Your task to perform on an android device: Nike Air Max 2020 shoes on Nike.com Image 0: 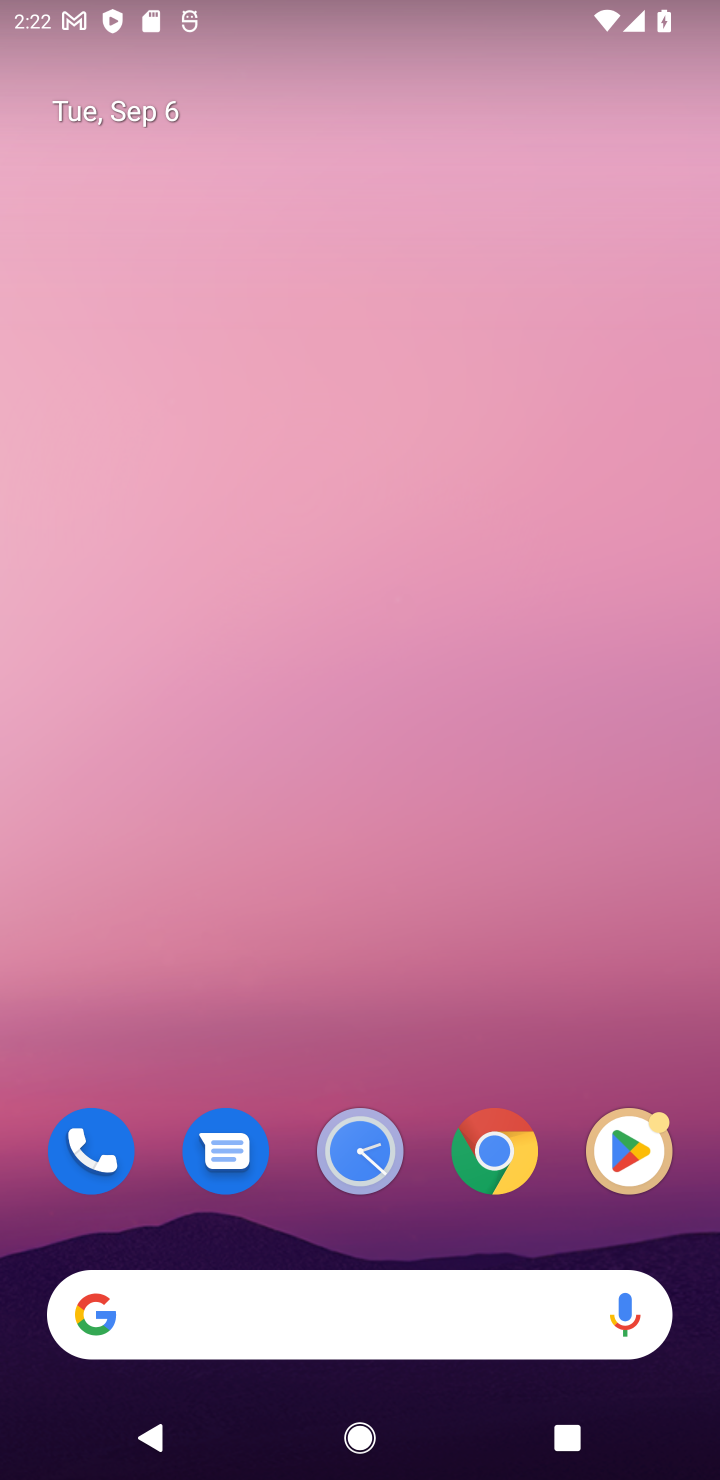
Step 0: click (489, 1128)
Your task to perform on an android device: Nike Air Max 2020 shoes on Nike.com Image 1: 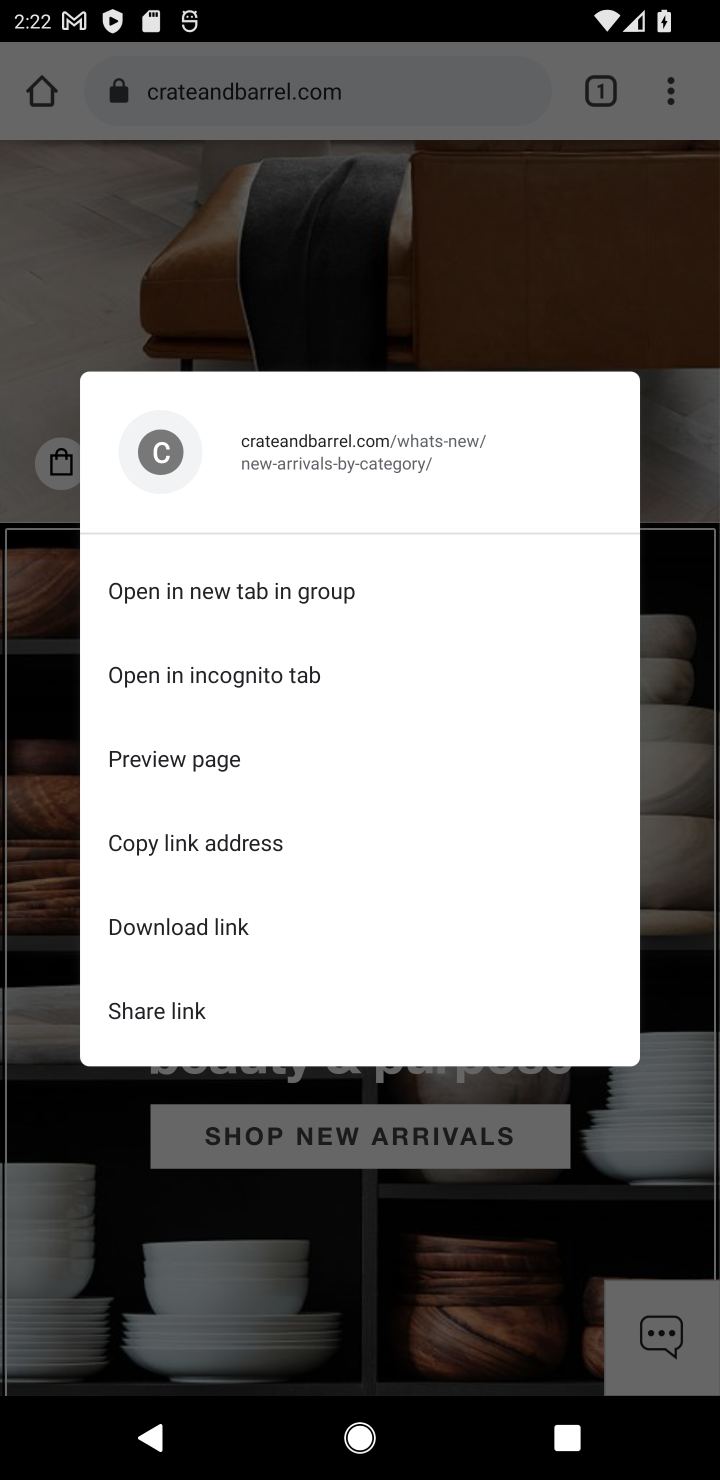
Step 1: click (196, 116)
Your task to perform on an android device: Nike Air Max 2020 shoes on Nike.com Image 2: 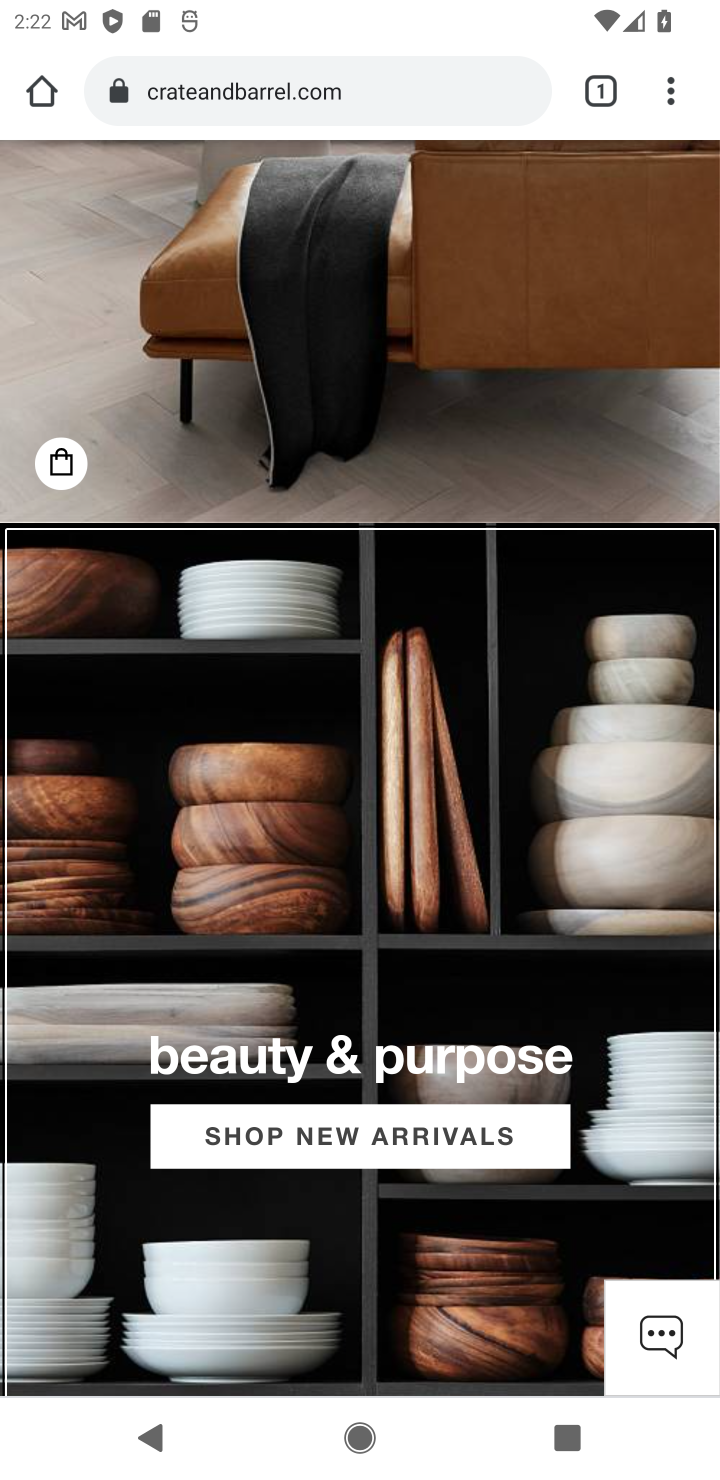
Step 2: click (190, 103)
Your task to perform on an android device: Nike Air Max 2020 shoes on Nike.com Image 3: 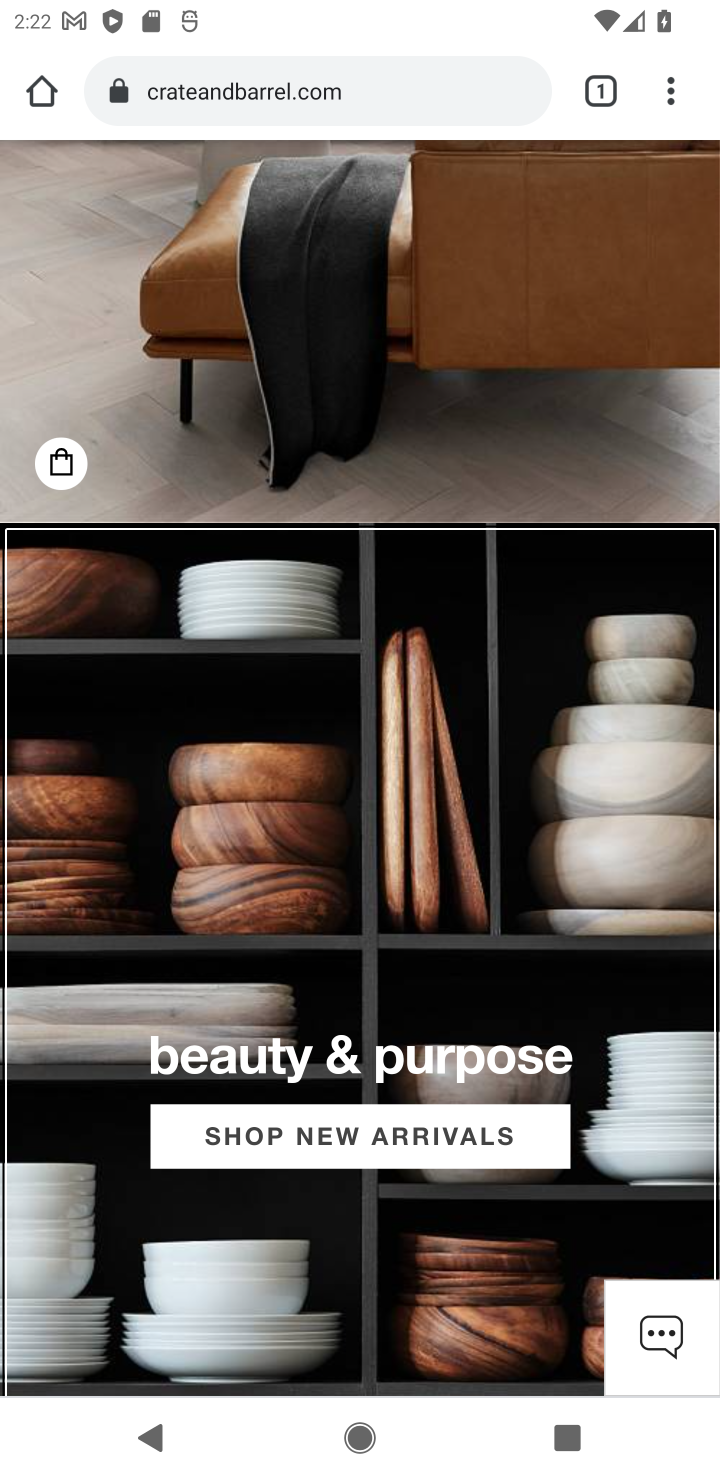
Step 3: click (396, 88)
Your task to perform on an android device: Nike Air Max 2020 shoes on Nike.com Image 4: 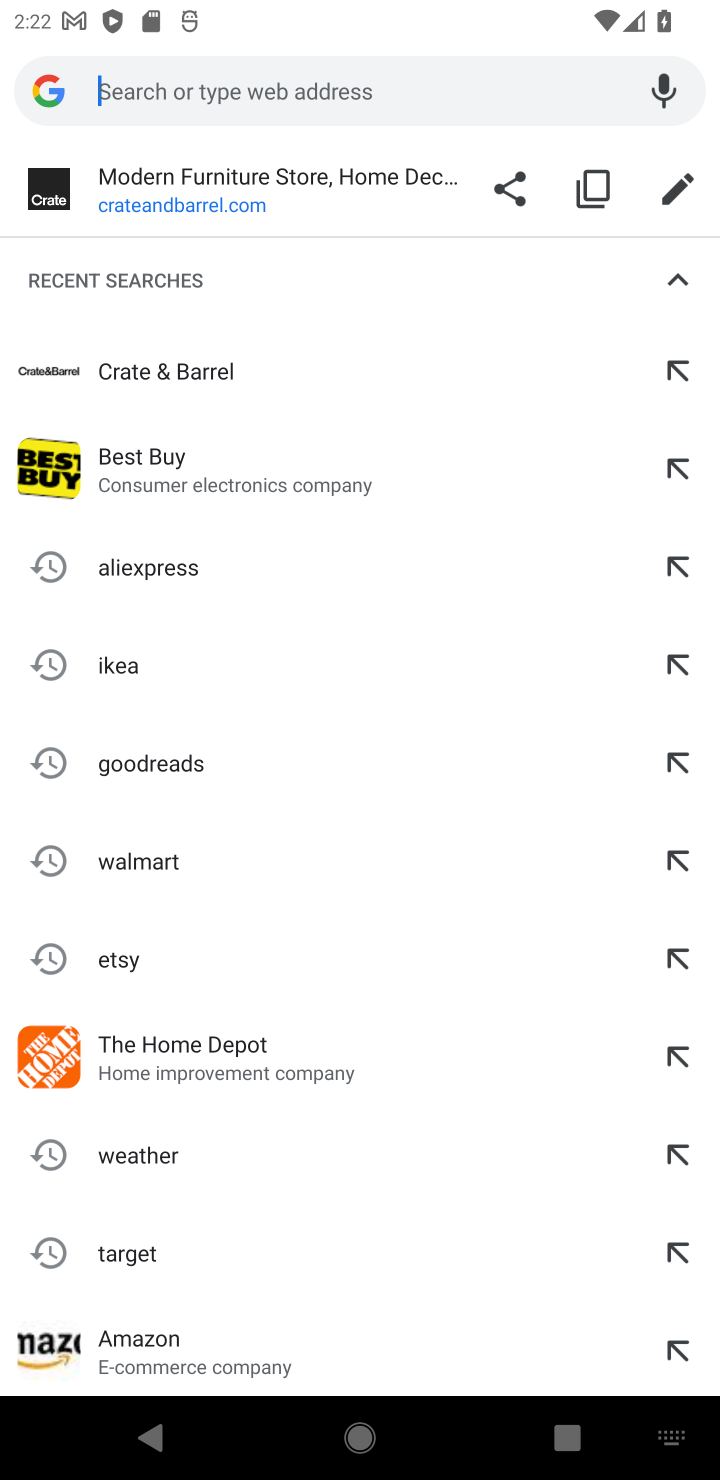
Step 4: type "nike.com"
Your task to perform on an android device: Nike Air Max 2020 shoes on Nike.com Image 5: 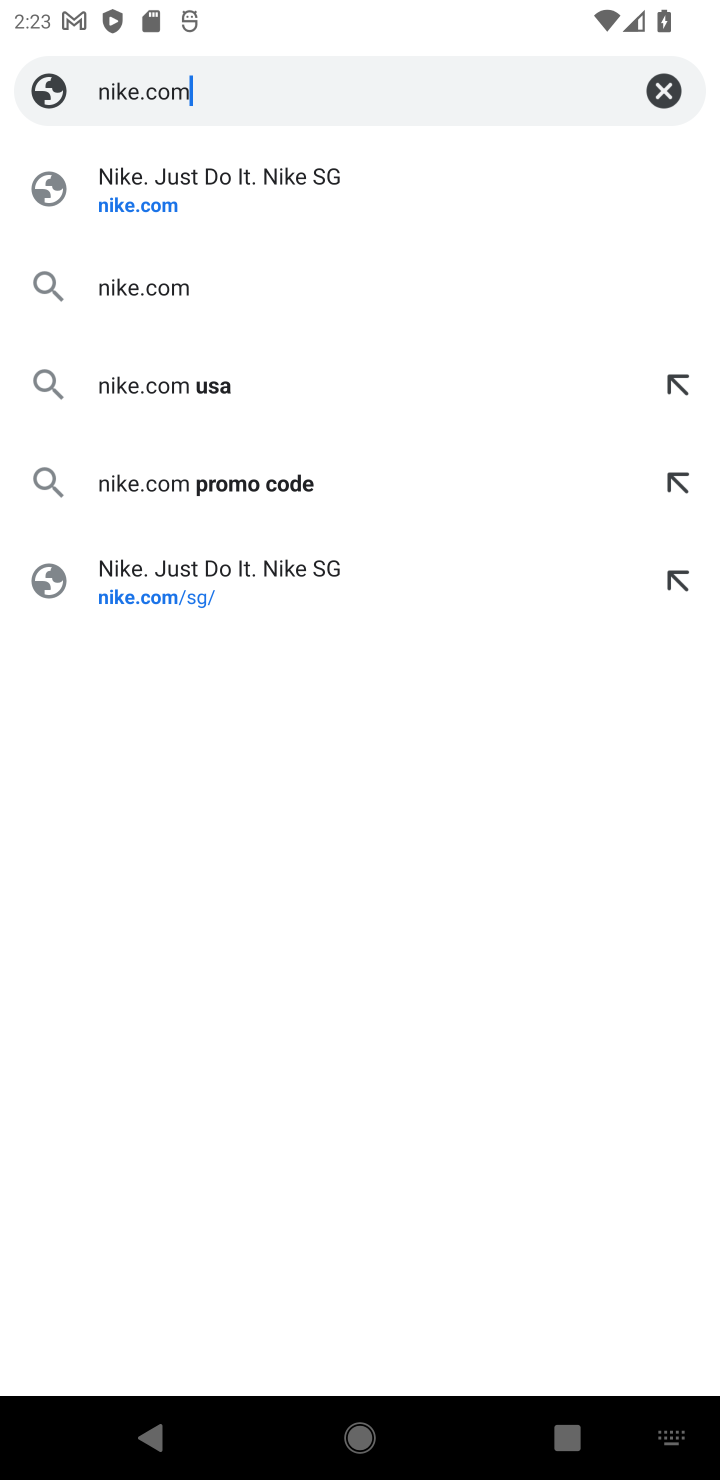
Step 5: click (181, 567)
Your task to perform on an android device: Nike Air Max 2020 shoes on Nike.com Image 6: 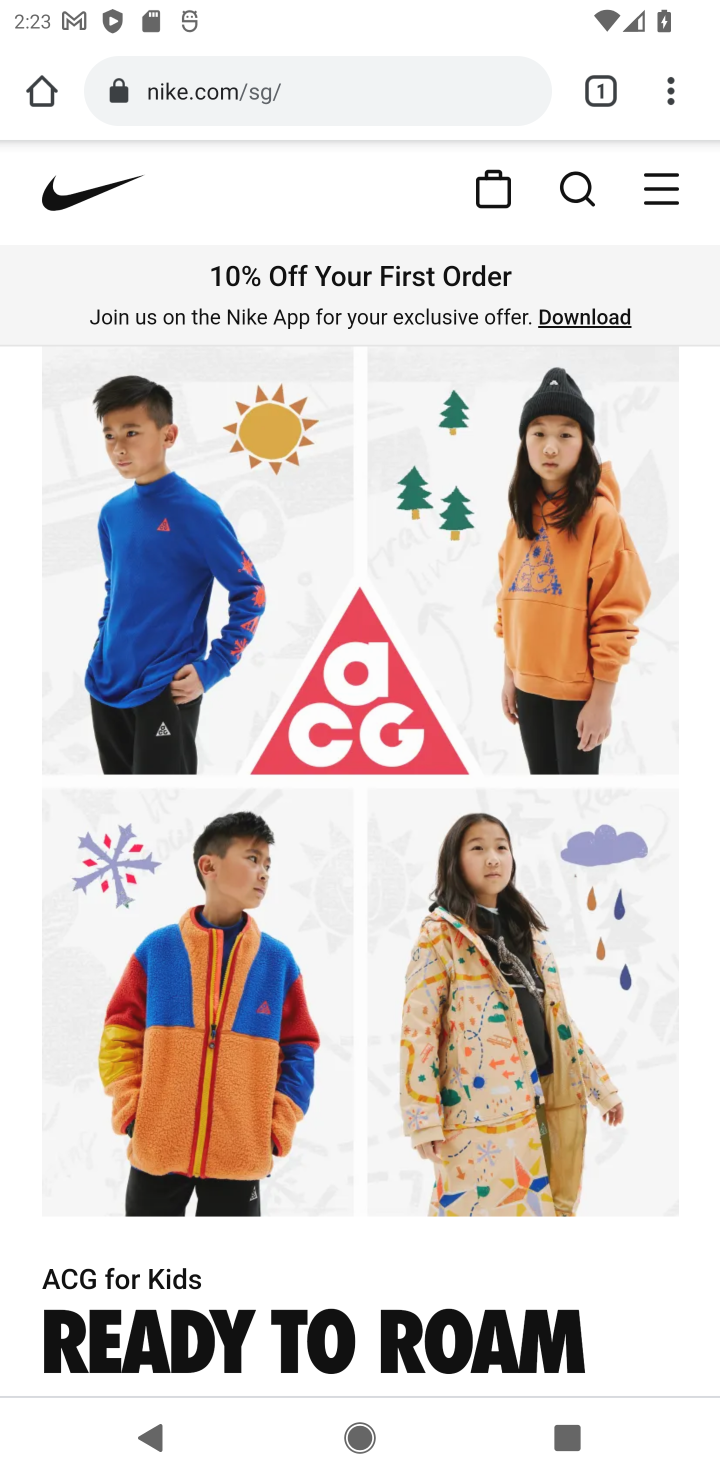
Step 6: click (571, 188)
Your task to perform on an android device: Nike Air Max 2020 shoes on Nike.com Image 7: 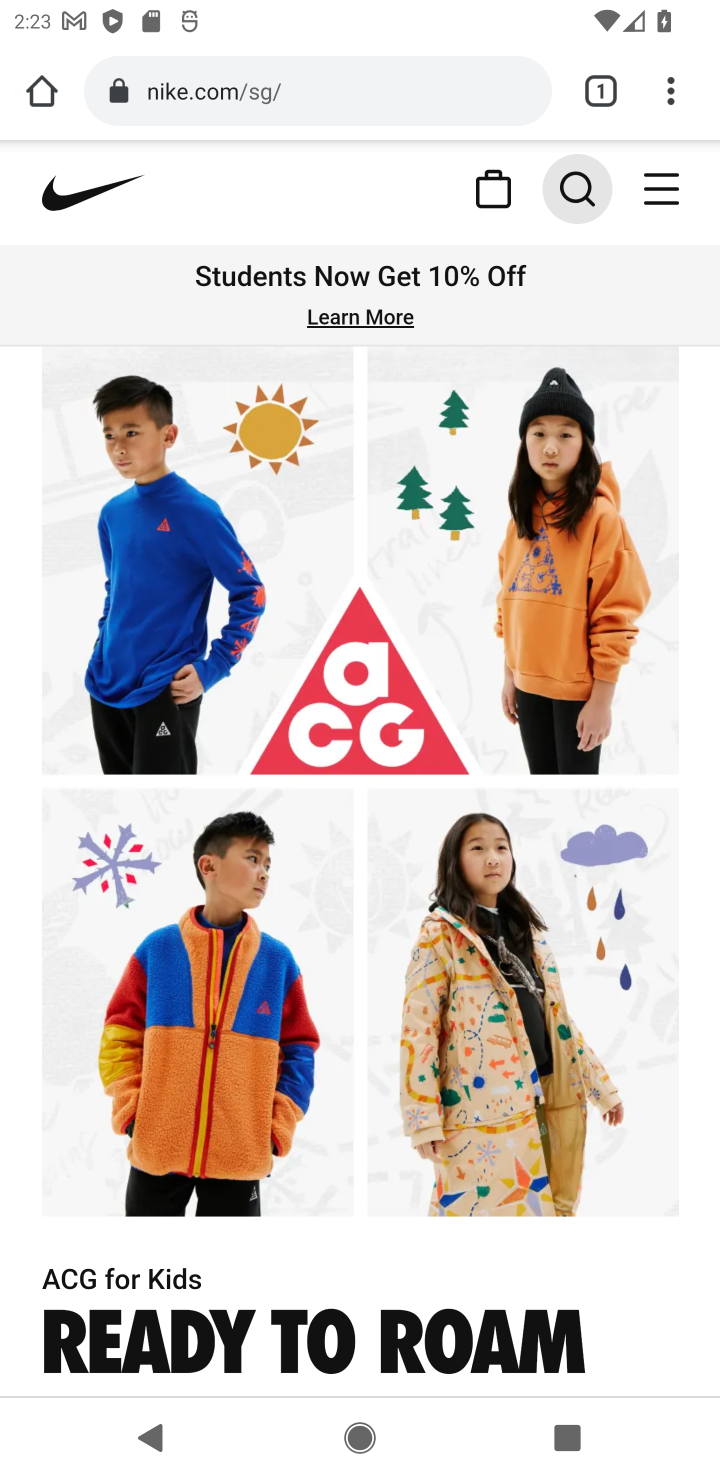
Step 7: click (575, 183)
Your task to perform on an android device: Nike Air Max 2020 shoes on Nike.com Image 8: 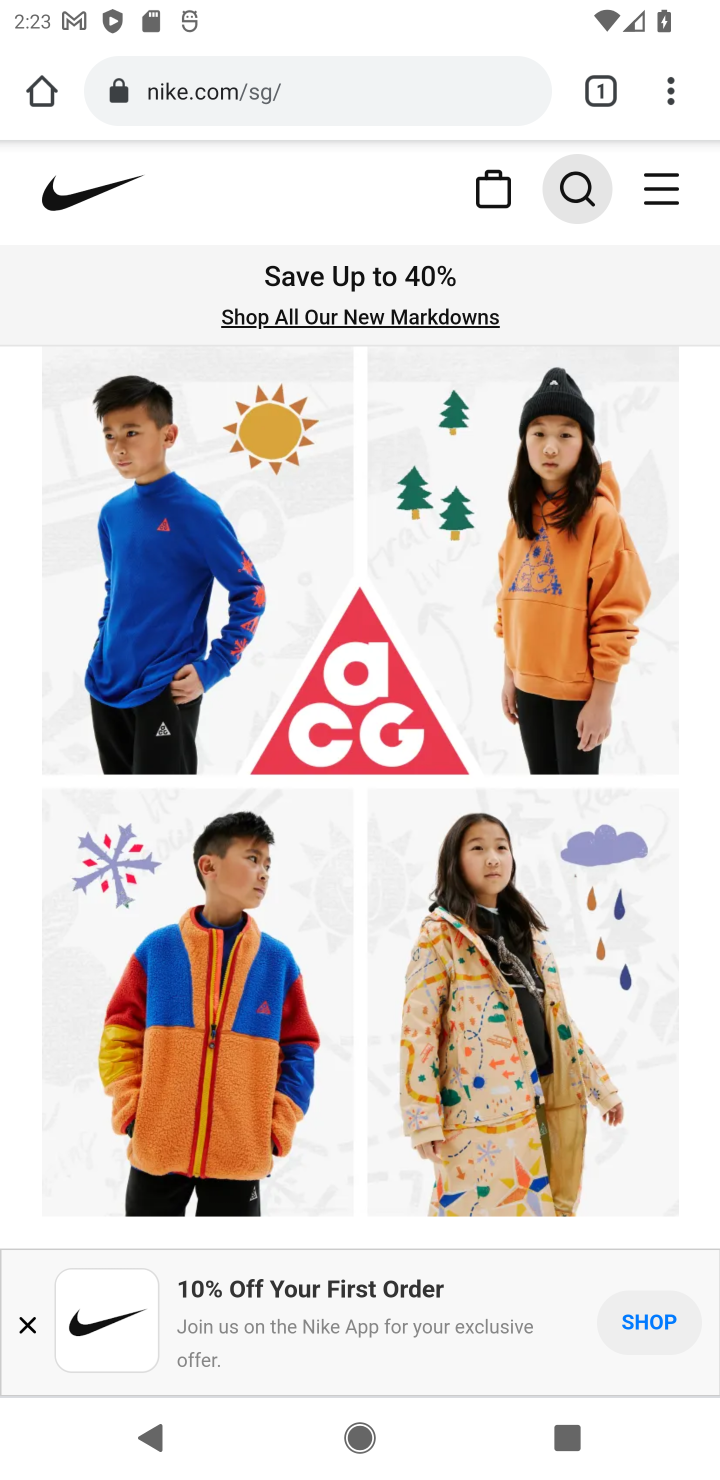
Step 8: click (582, 187)
Your task to perform on an android device: Nike Air Max 2020 shoes on Nike.com Image 9: 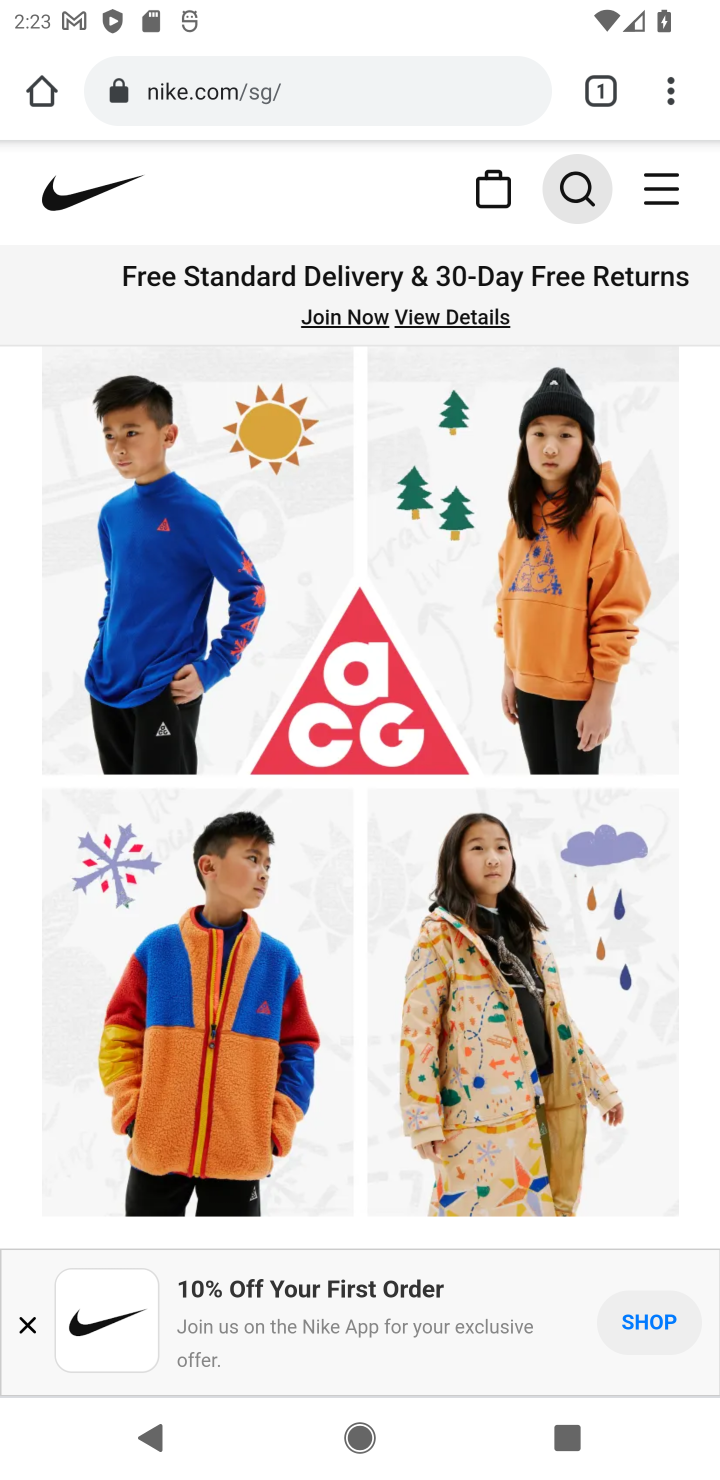
Step 9: click (26, 1331)
Your task to perform on an android device: Nike Air Max 2020 shoes on Nike.com Image 10: 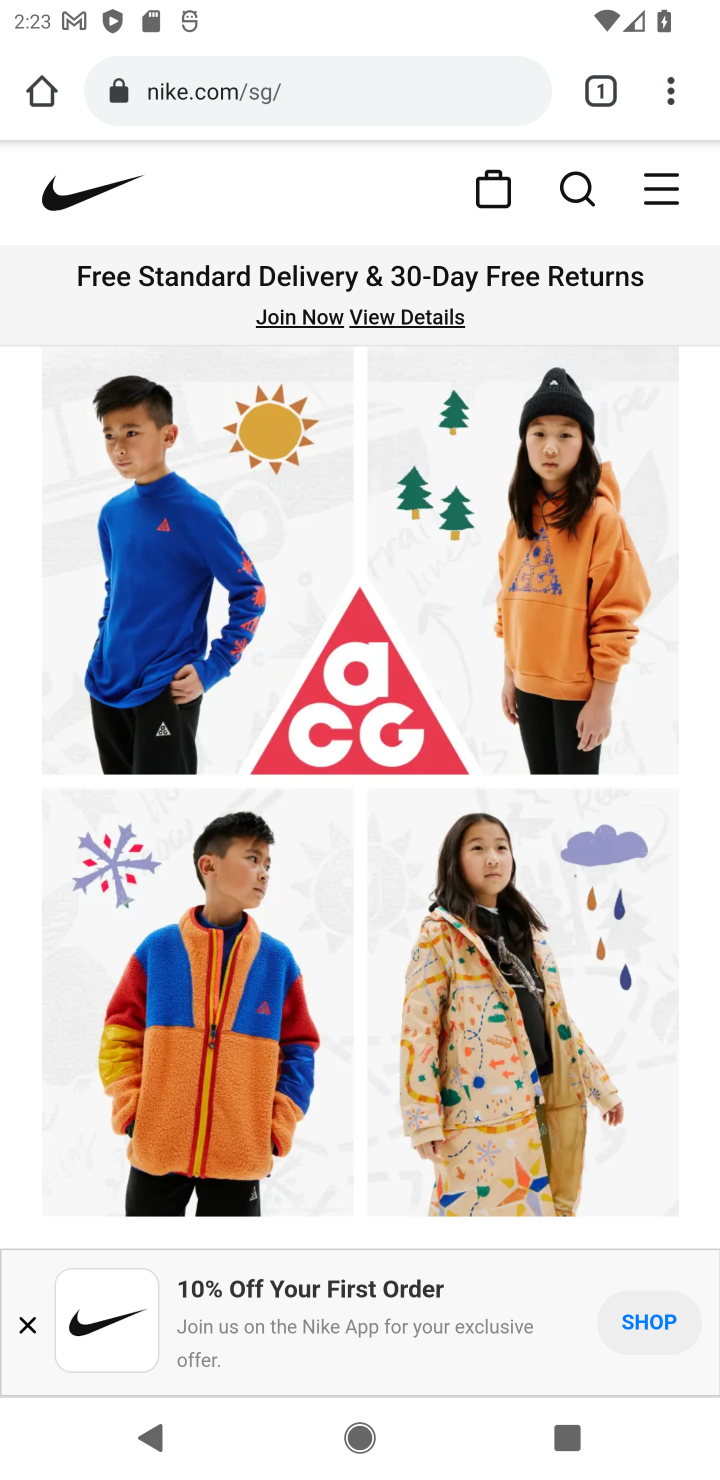
Step 10: click (589, 184)
Your task to perform on an android device: Nike Air Max 2020 shoes on Nike.com Image 11: 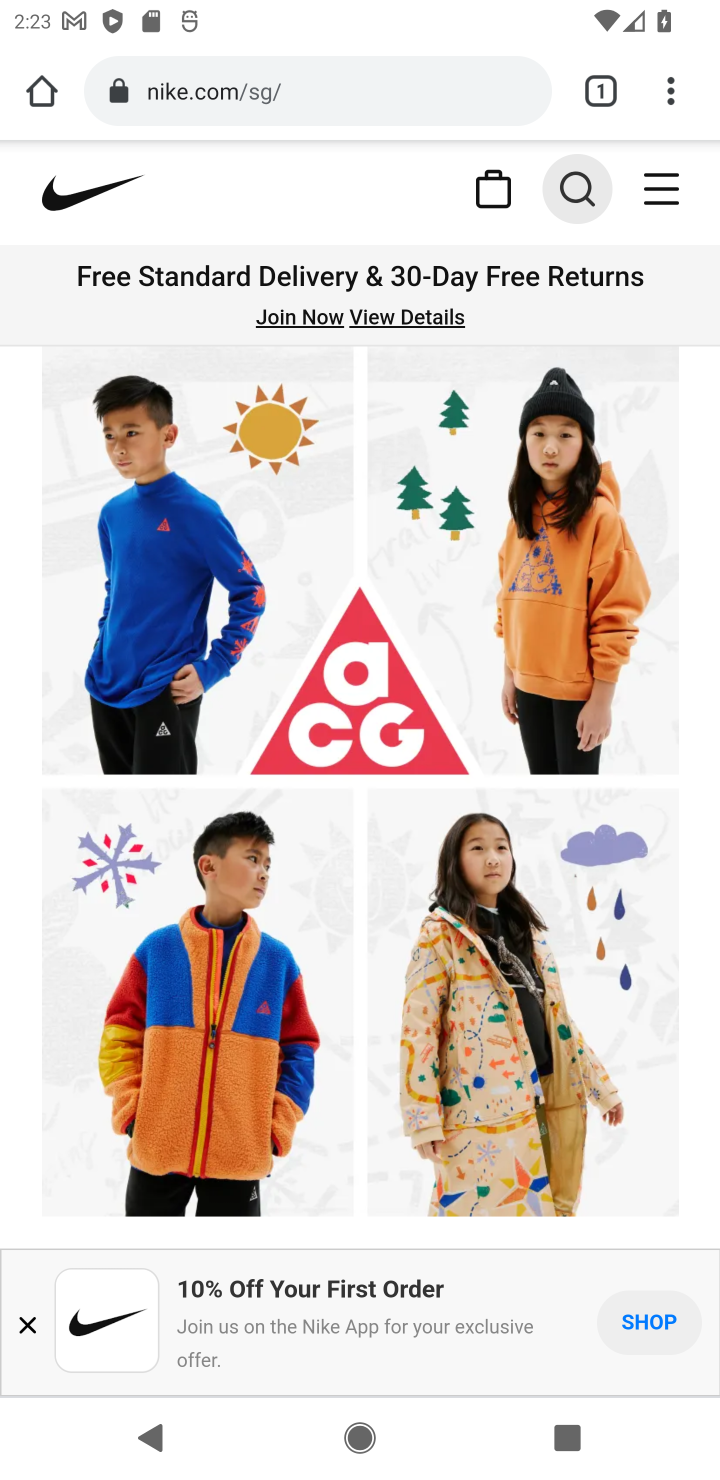
Step 11: click (572, 198)
Your task to perform on an android device: Nike Air Max 2020 shoes on Nike.com Image 12: 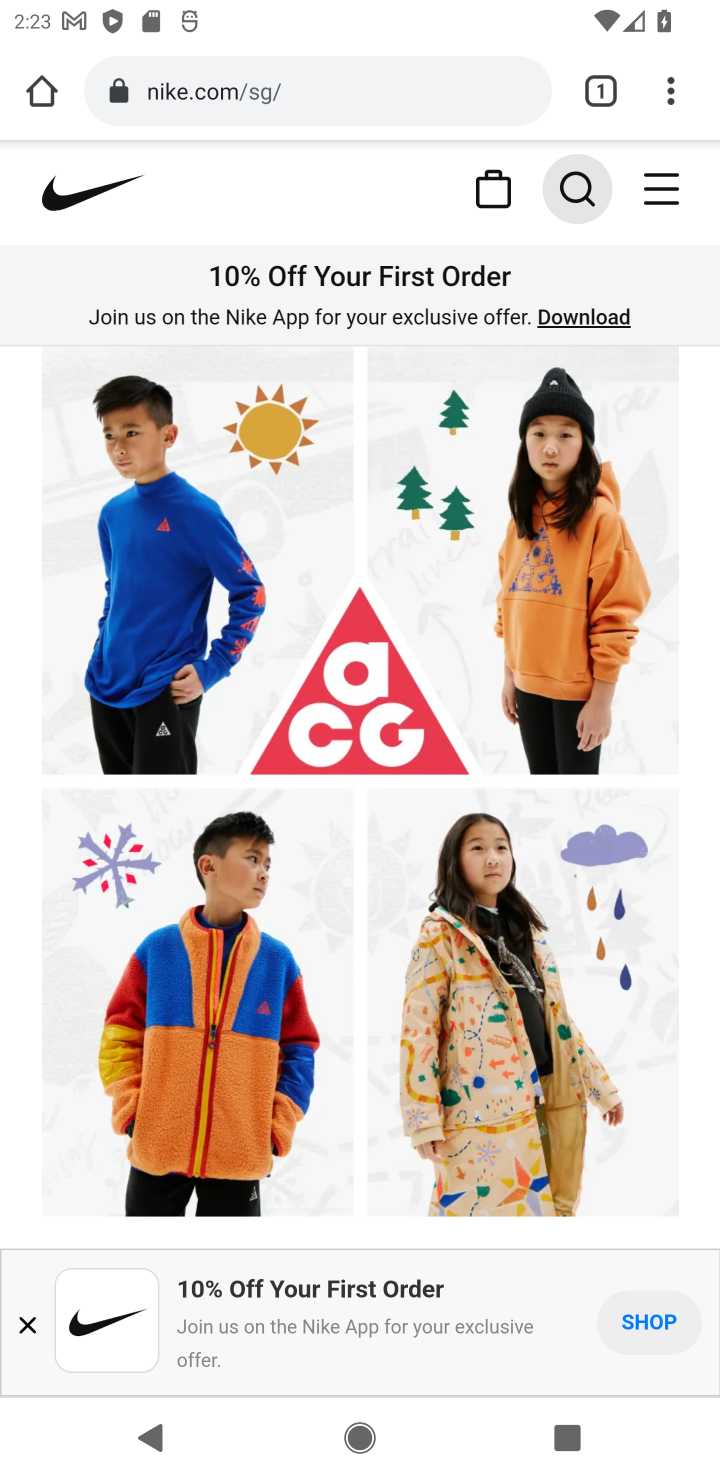
Step 12: click (572, 198)
Your task to perform on an android device: Nike Air Max 2020 shoes on Nike.com Image 13: 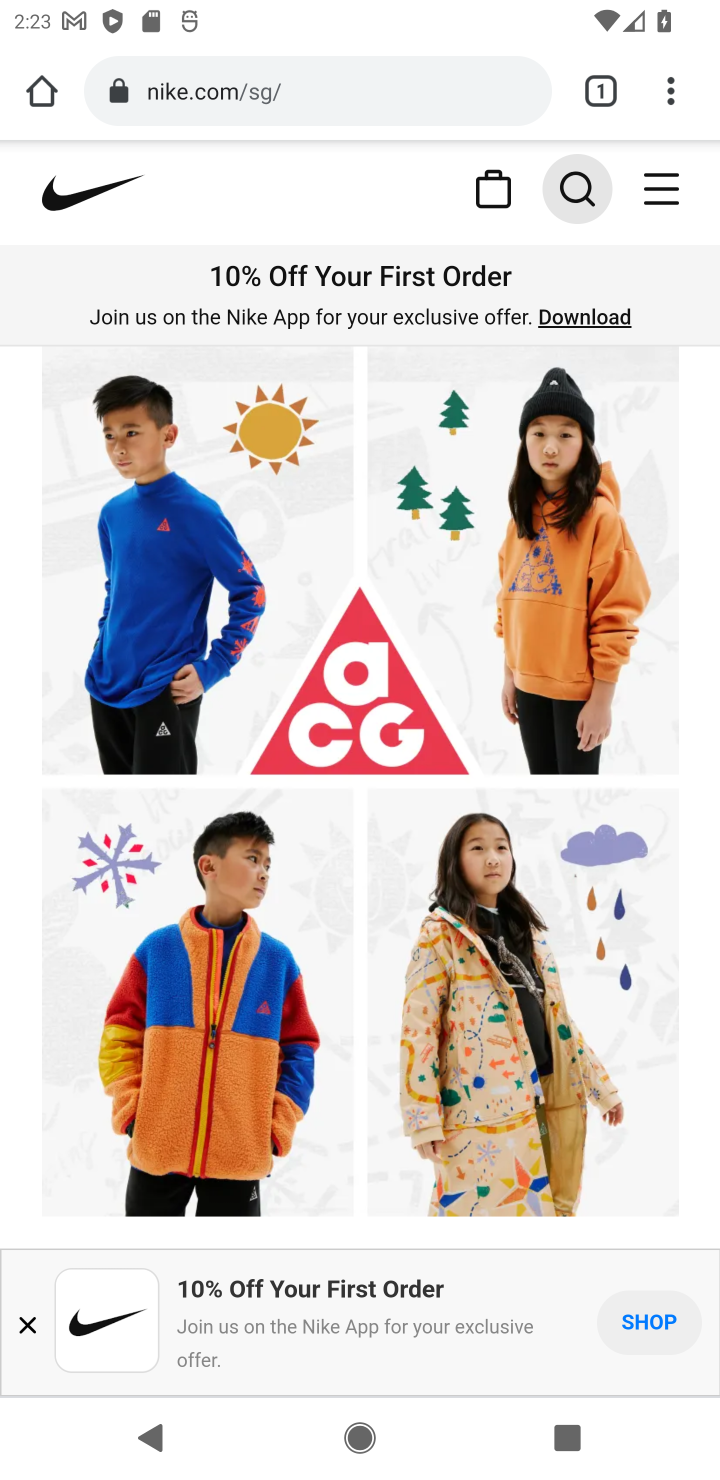
Step 13: click (23, 1324)
Your task to perform on an android device: Nike Air Max 2020 shoes on Nike.com Image 14: 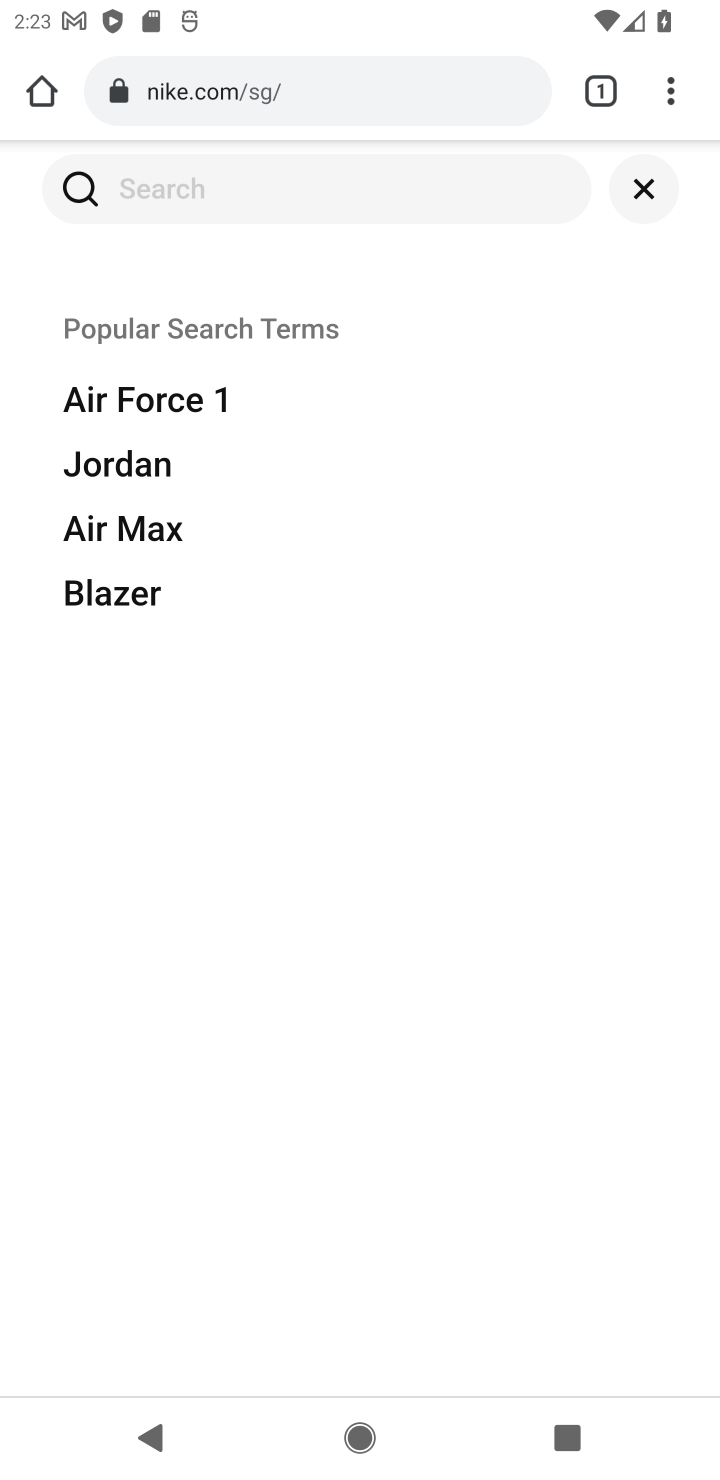
Step 14: click (198, 190)
Your task to perform on an android device: Nike Air Max 2020 shoes on Nike.com Image 15: 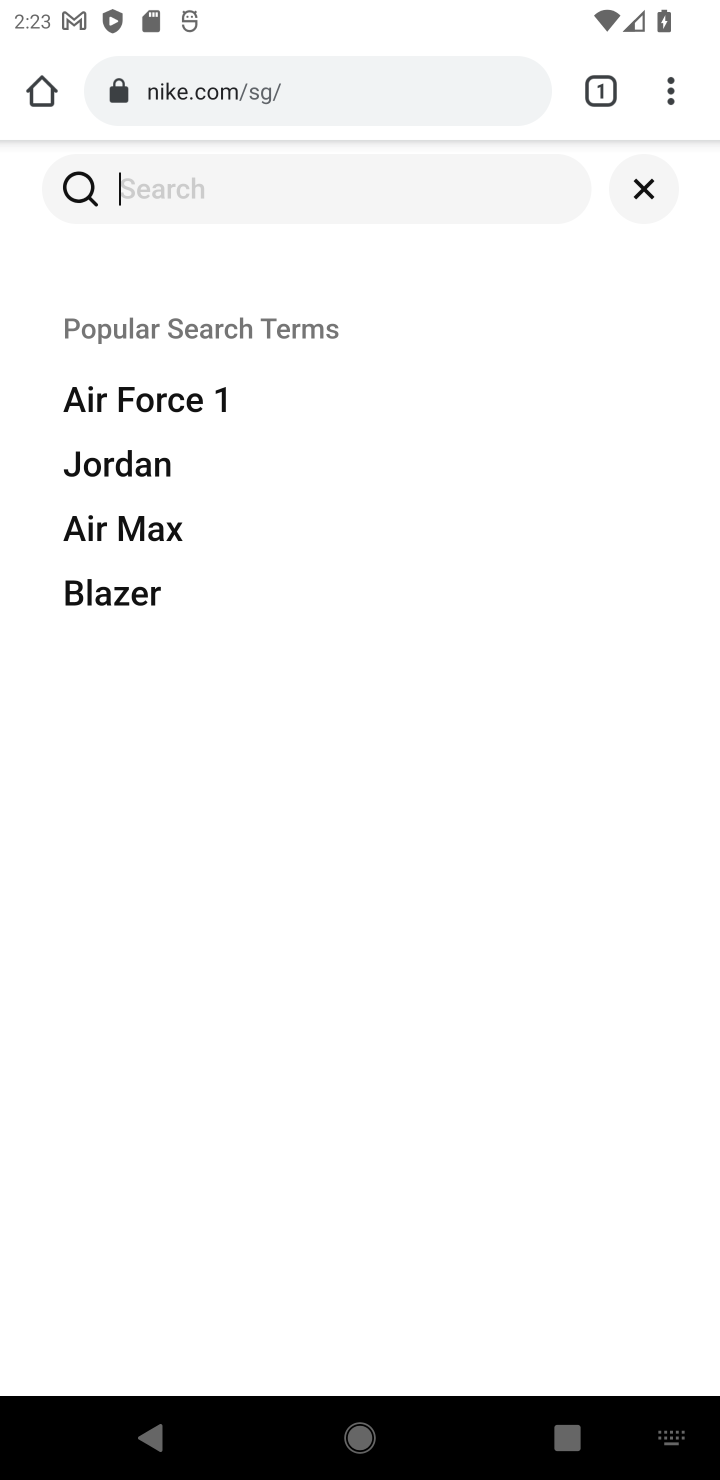
Step 15: type "air max 2020"
Your task to perform on an android device: Nike Air Max 2020 shoes on Nike.com Image 16: 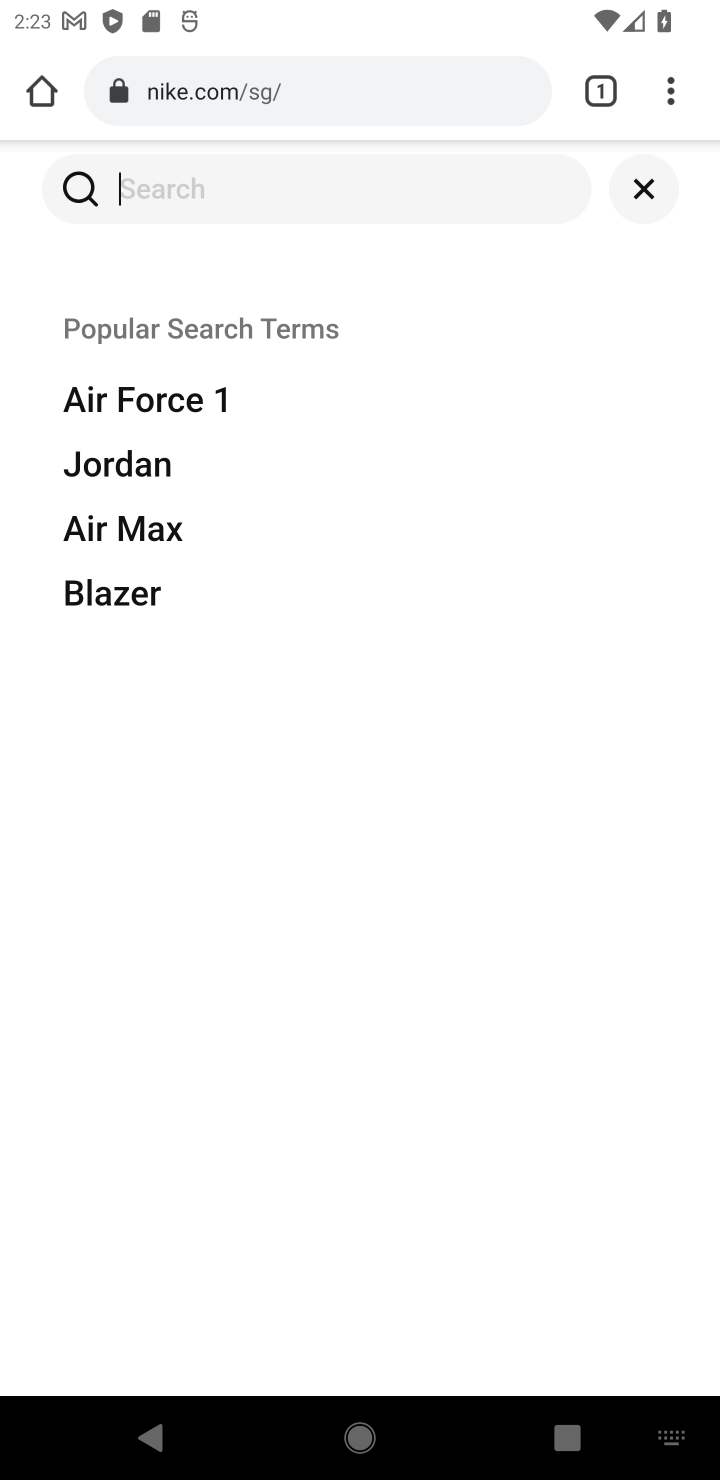
Step 16: type ""
Your task to perform on an android device: Nike Air Max 2020 shoes on Nike.com Image 17: 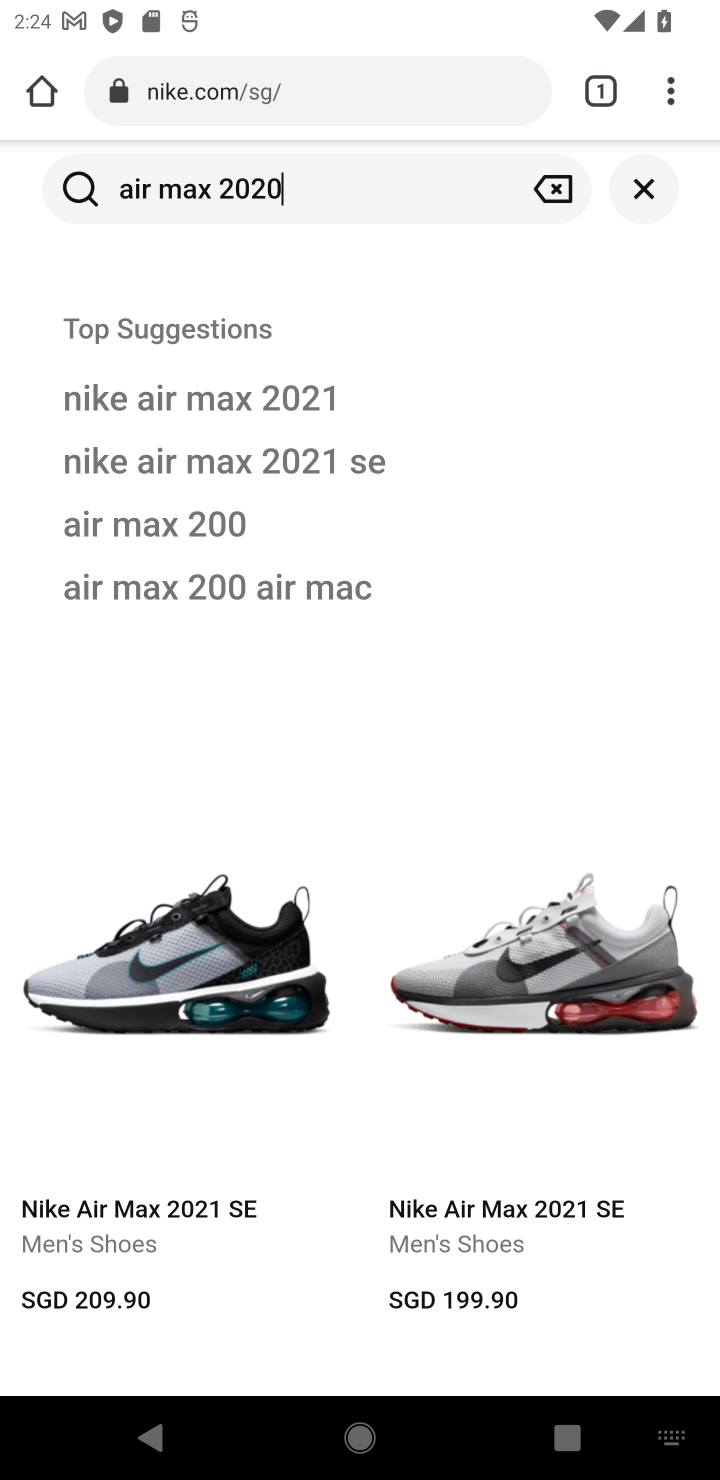
Step 17: drag from (391, 984) to (577, 413)
Your task to perform on an android device: Nike Air Max 2020 shoes on Nike.com Image 18: 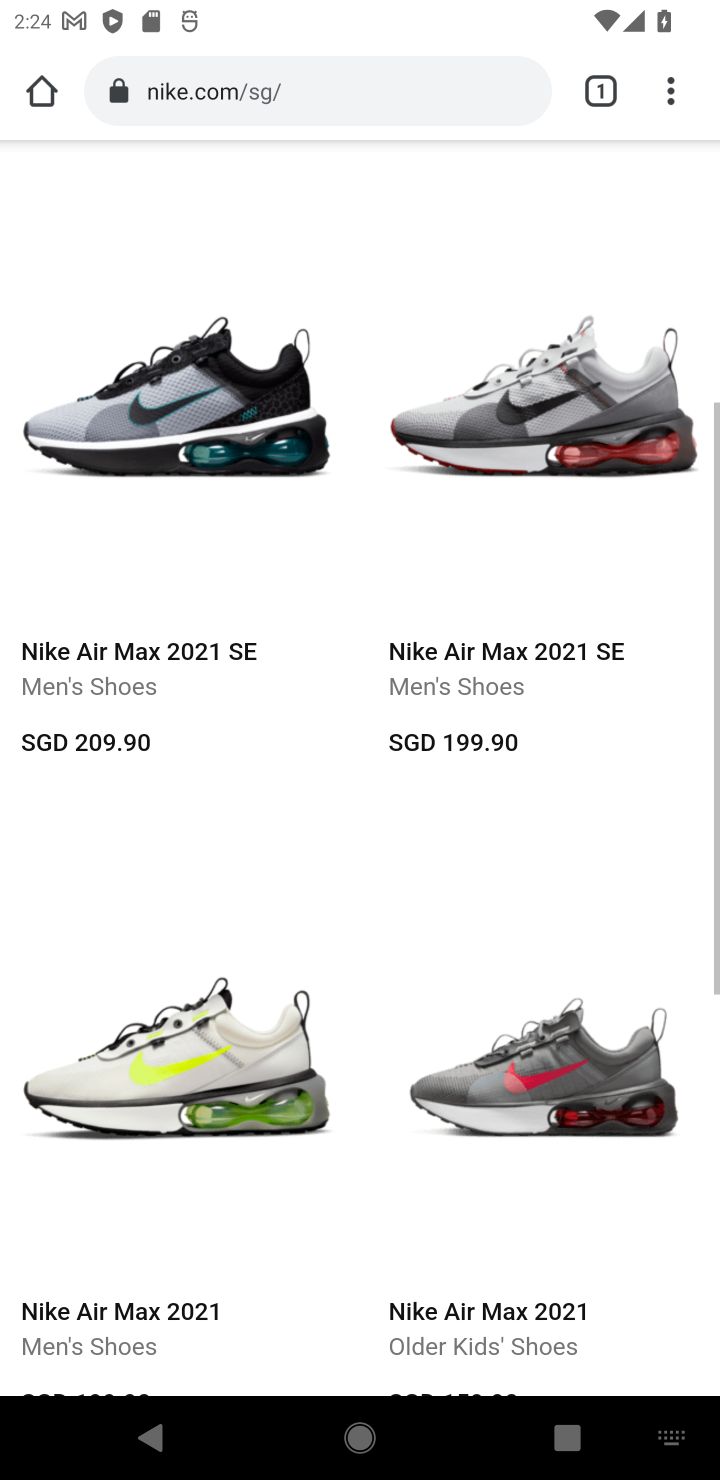
Step 18: drag from (436, 663) to (513, 436)
Your task to perform on an android device: Nike Air Max 2020 shoes on Nike.com Image 19: 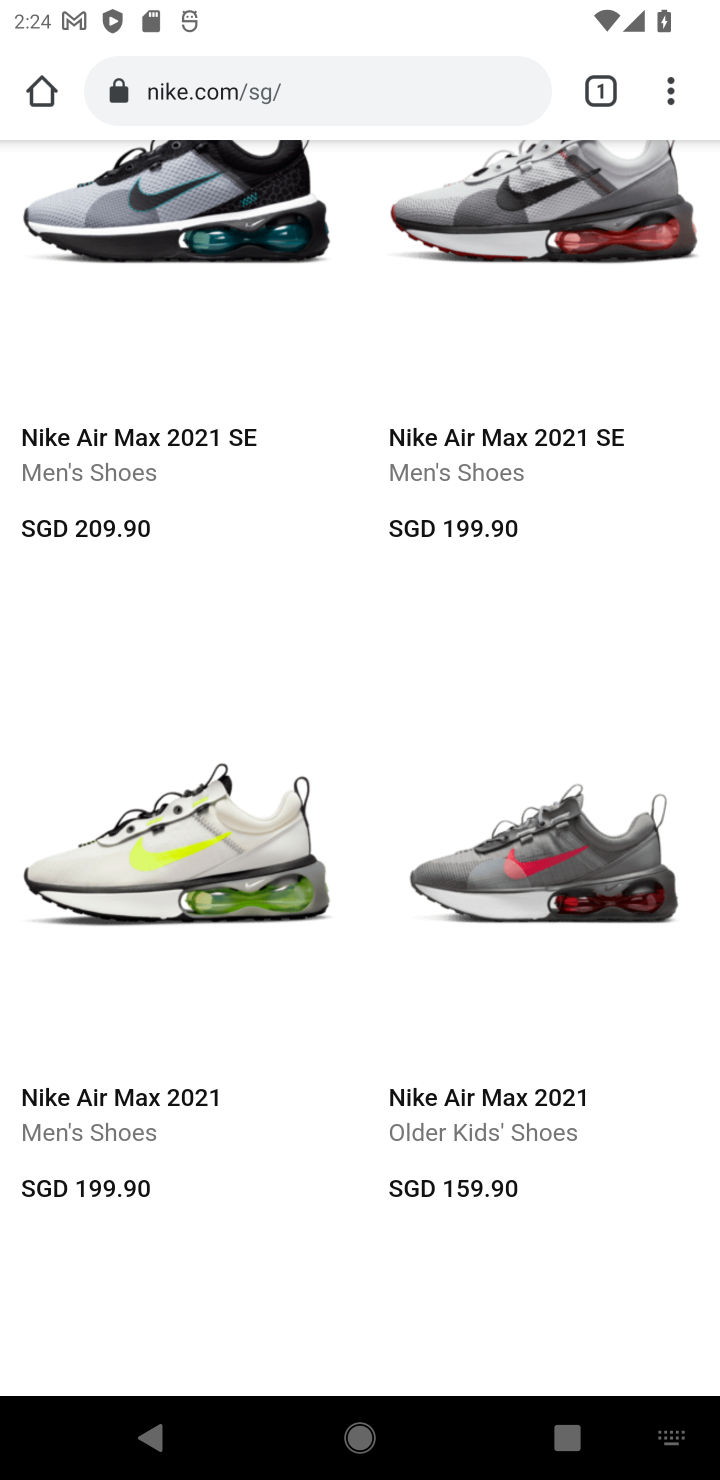
Step 19: drag from (345, 647) to (550, 170)
Your task to perform on an android device: Nike Air Max 2020 shoes on Nike.com Image 20: 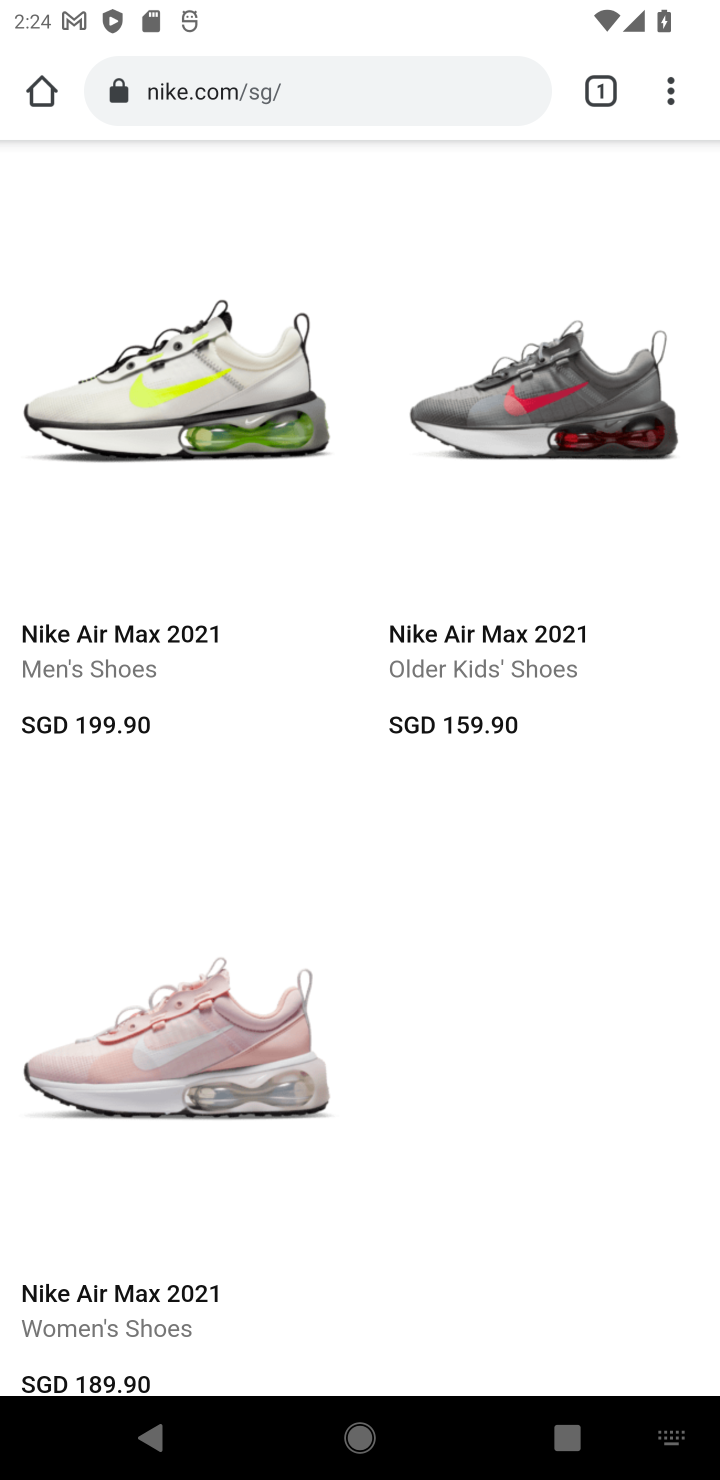
Step 20: click (475, 1183)
Your task to perform on an android device: Nike Air Max 2020 shoes on Nike.com Image 21: 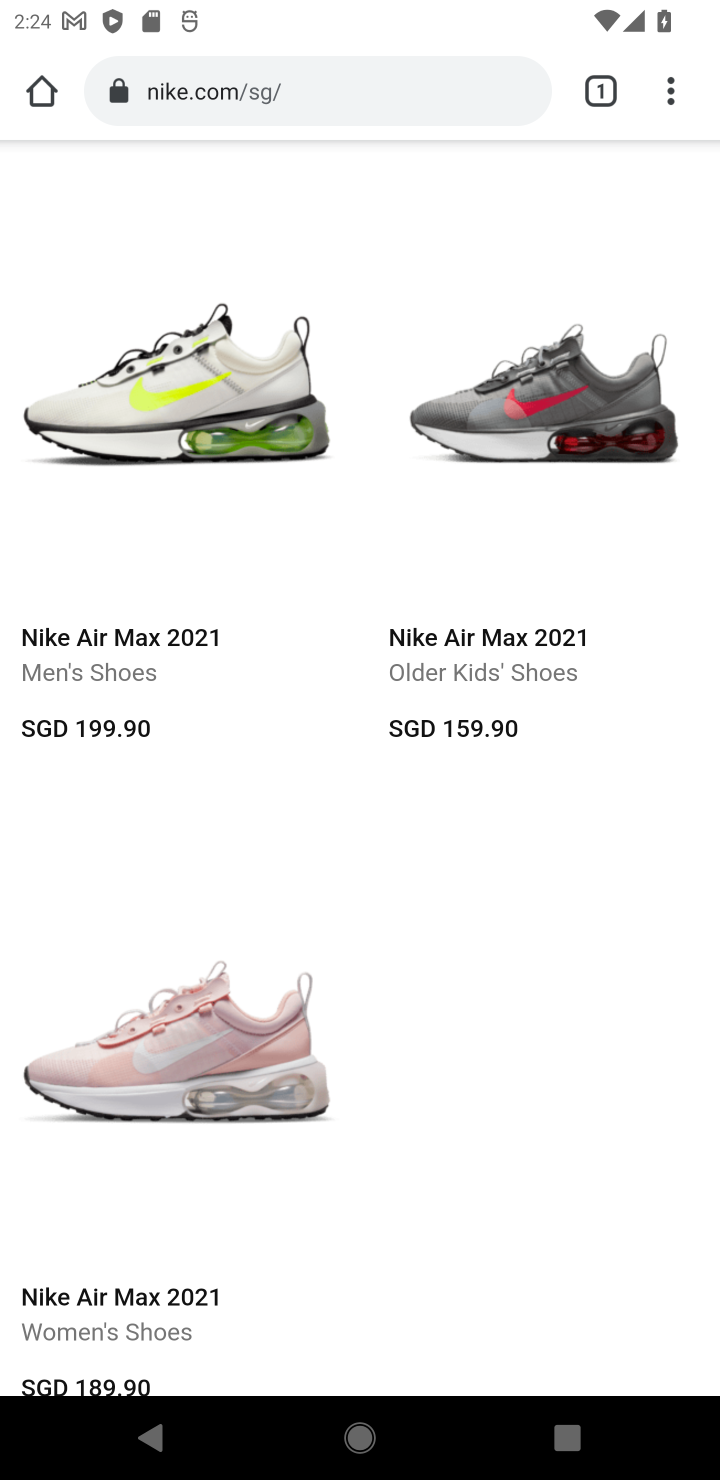
Step 21: drag from (648, 324) to (662, 1195)
Your task to perform on an android device: Nike Air Max 2020 shoes on Nike.com Image 22: 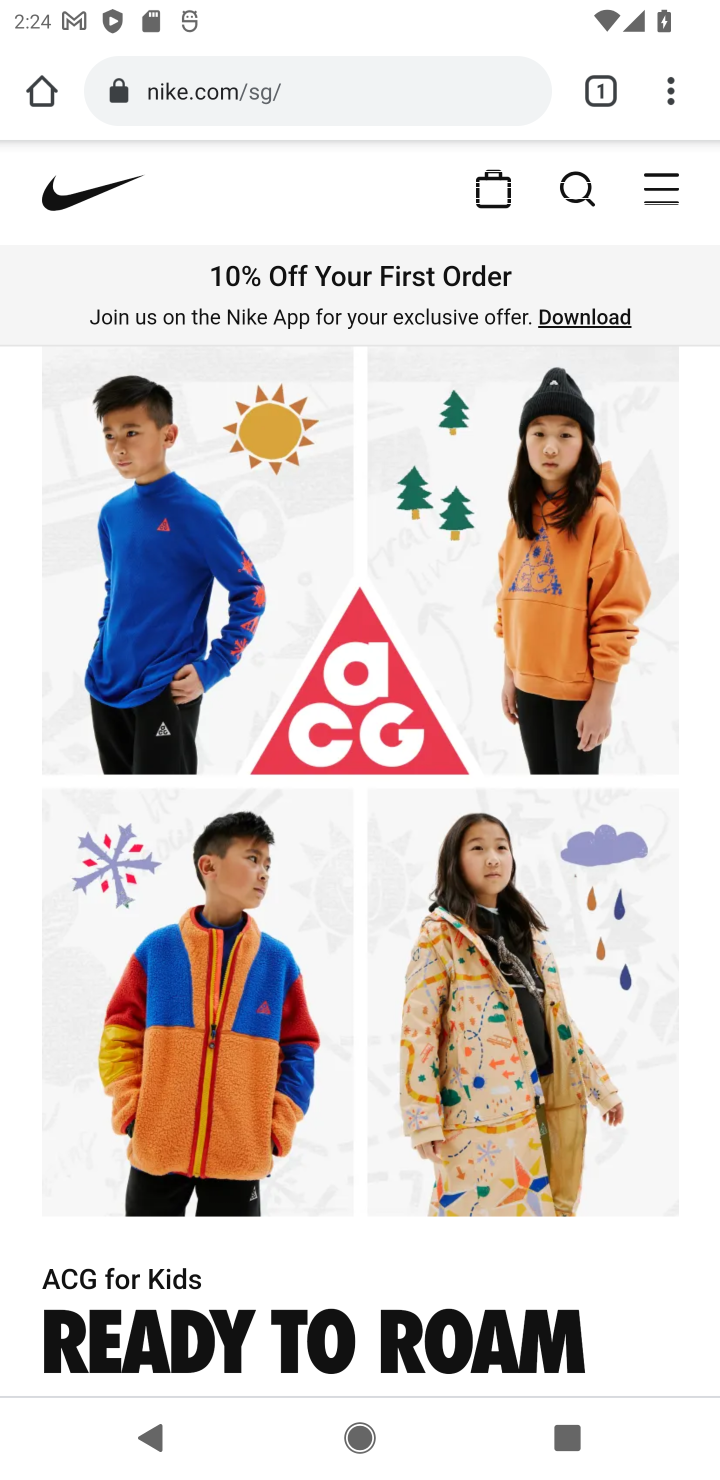
Step 22: click (571, 187)
Your task to perform on an android device: Nike Air Max 2020 shoes on Nike.com Image 23: 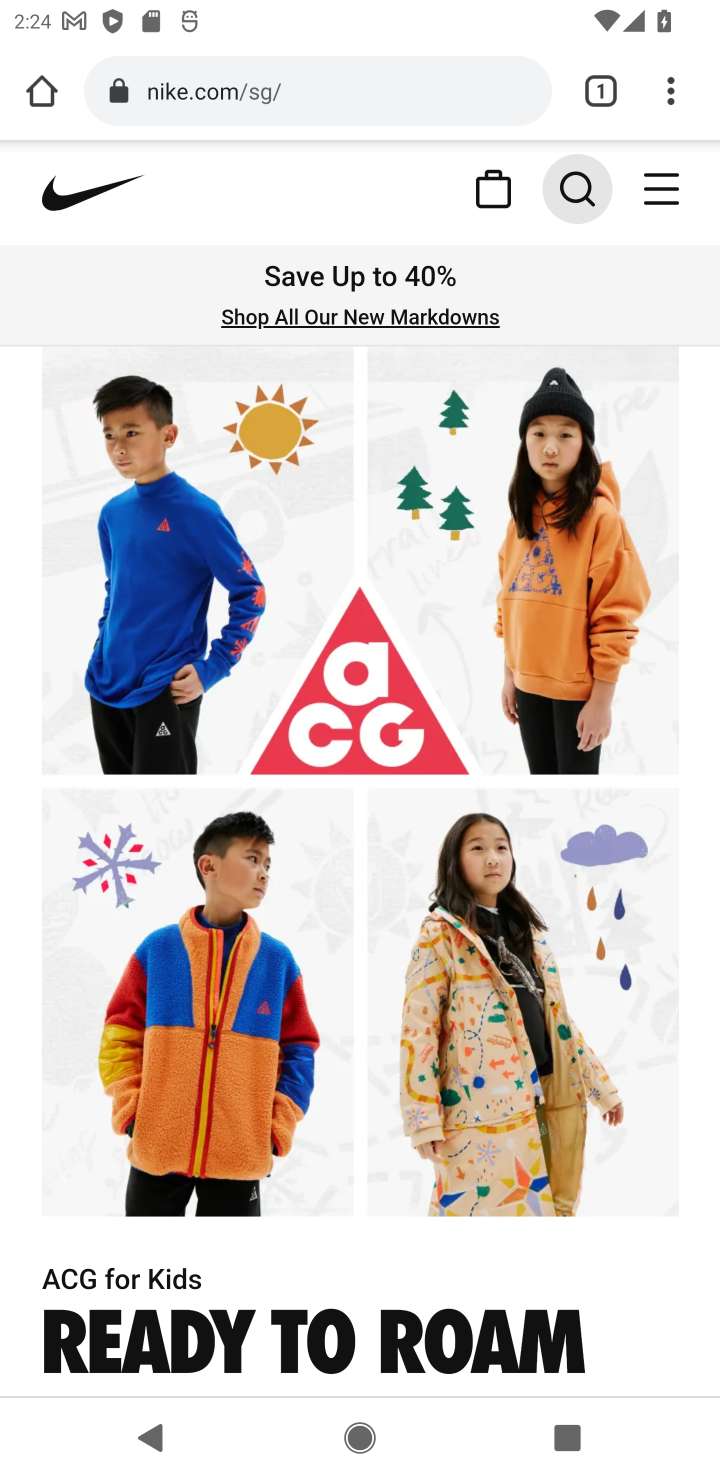
Step 23: click (563, 181)
Your task to perform on an android device: Nike Air Max 2020 shoes on Nike.com Image 24: 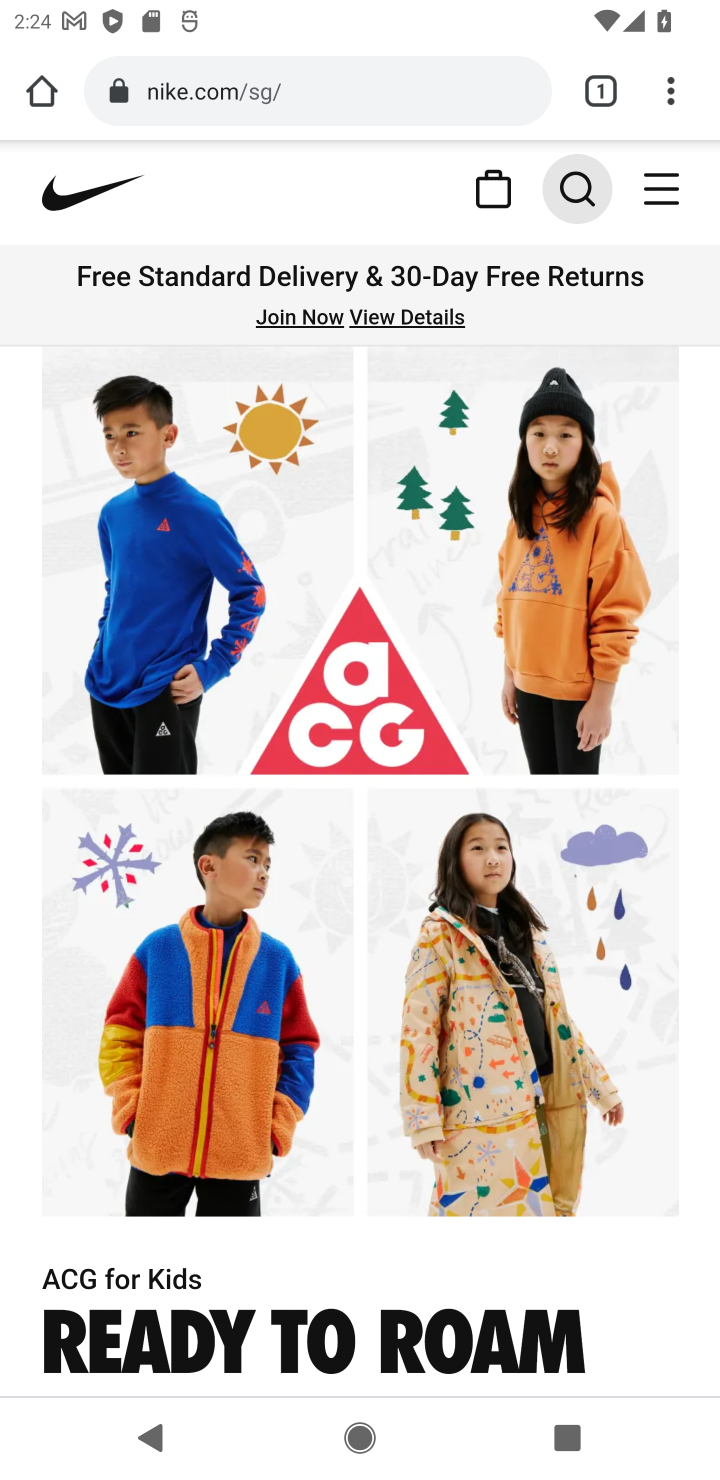
Step 24: click (583, 197)
Your task to perform on an android device: Nike Air Max 2020 shoes on Nike.com Image 25: 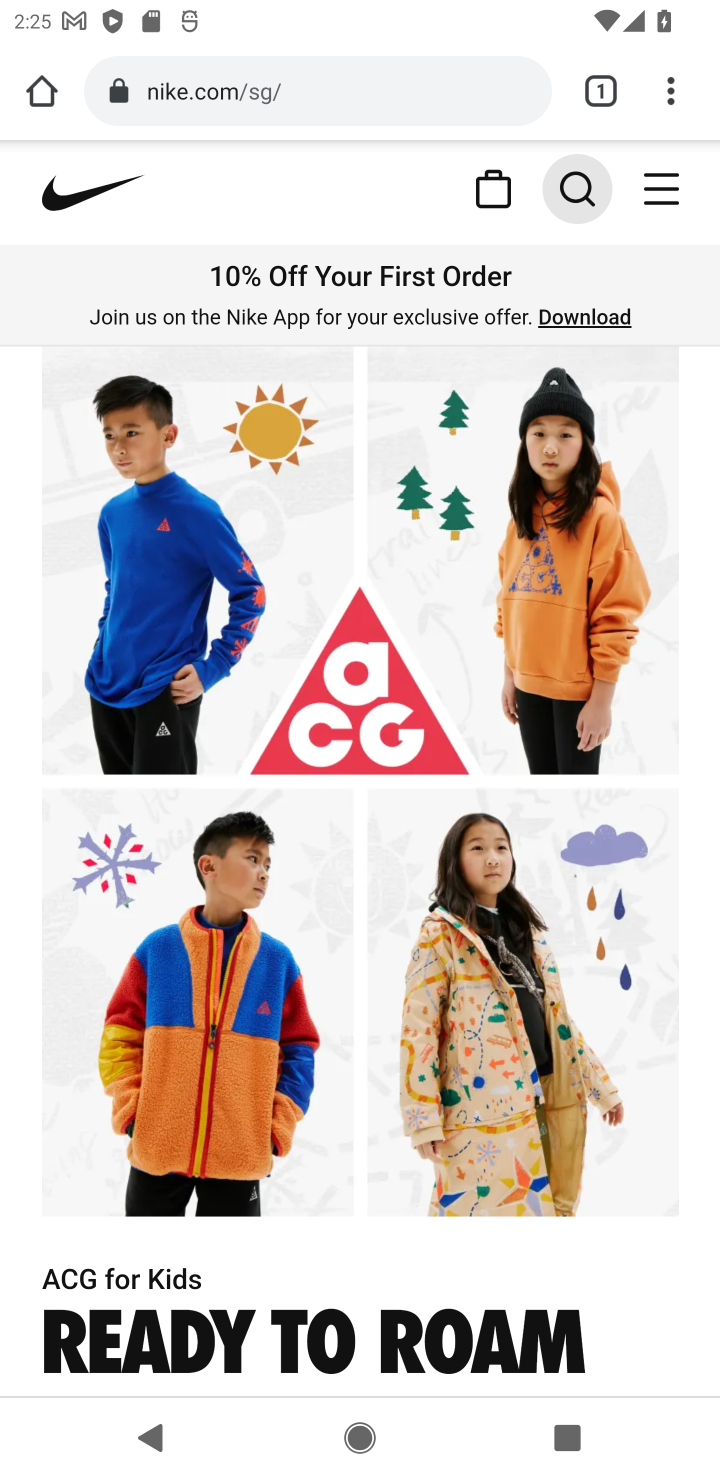
Step 25: click (562, 199)
Your task to perform on an android device: Nike Air Max 2020 shoes on Nike.com Image 26: 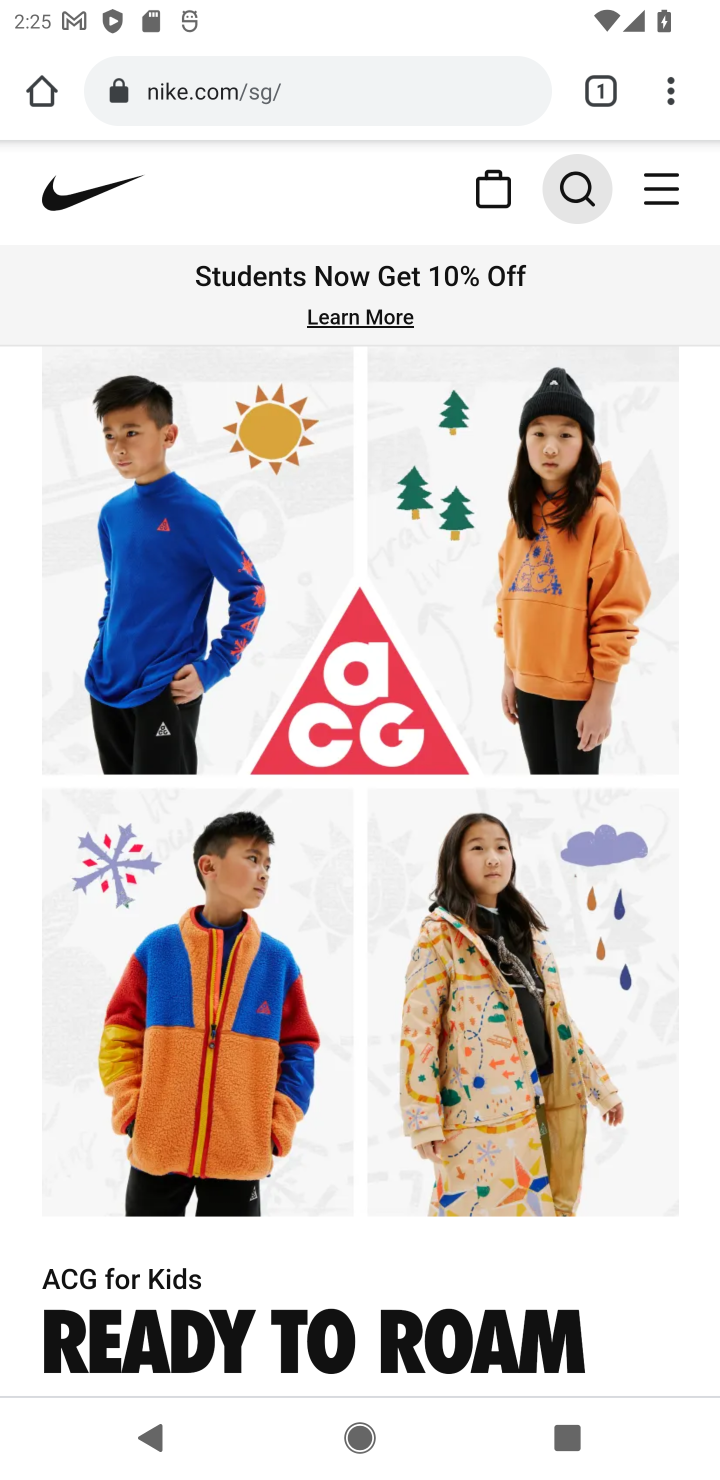
Step 26: click (564, 197)
Your task to perform on an android device: Nike Air Max 2020 shoes on Nike.com Image 27: 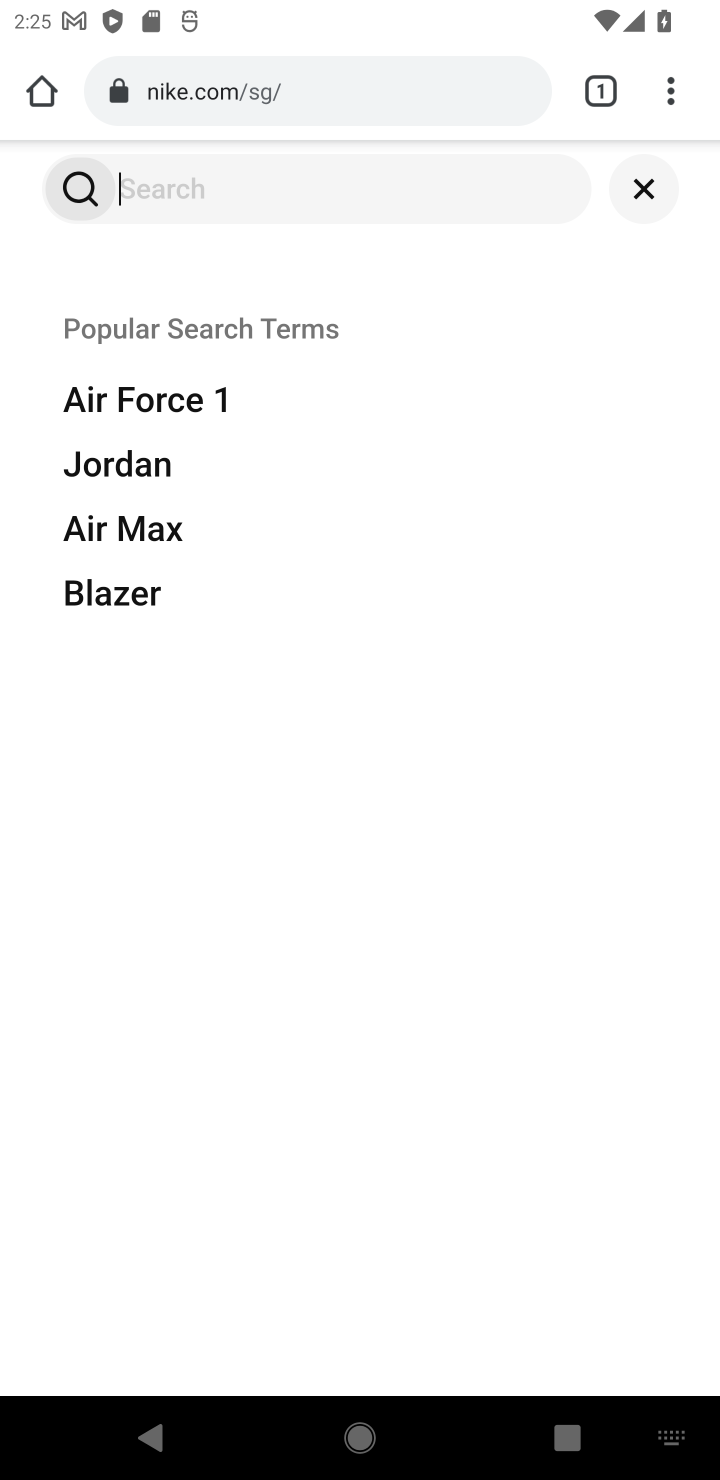
Step 27: click (166, 532)
Your task to perform on an android device: Nike Air Max 2020 shoes on Nike.com Image 28: 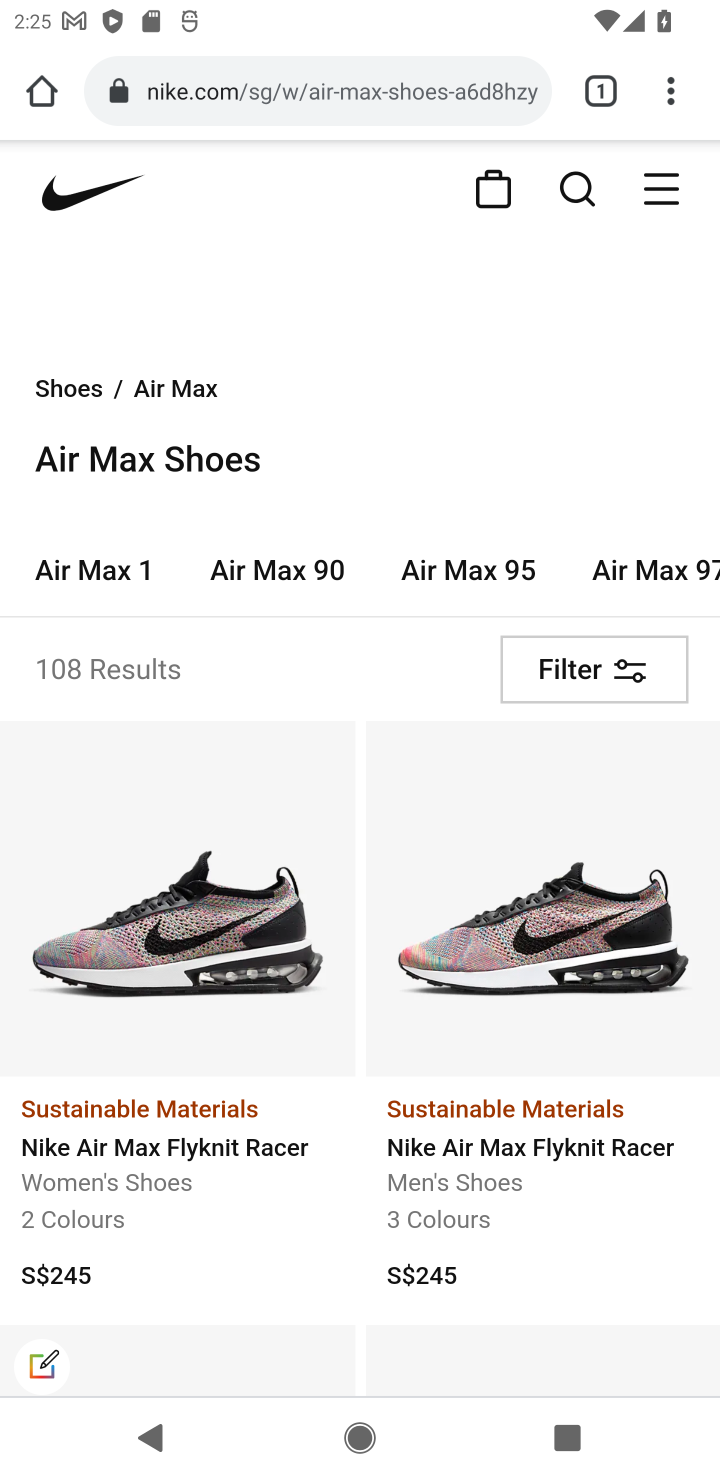
Step 28: click (582, 657)
Your task to perform on an android device: Nike Air Max 2020 shoes on Nike.com Image 29: 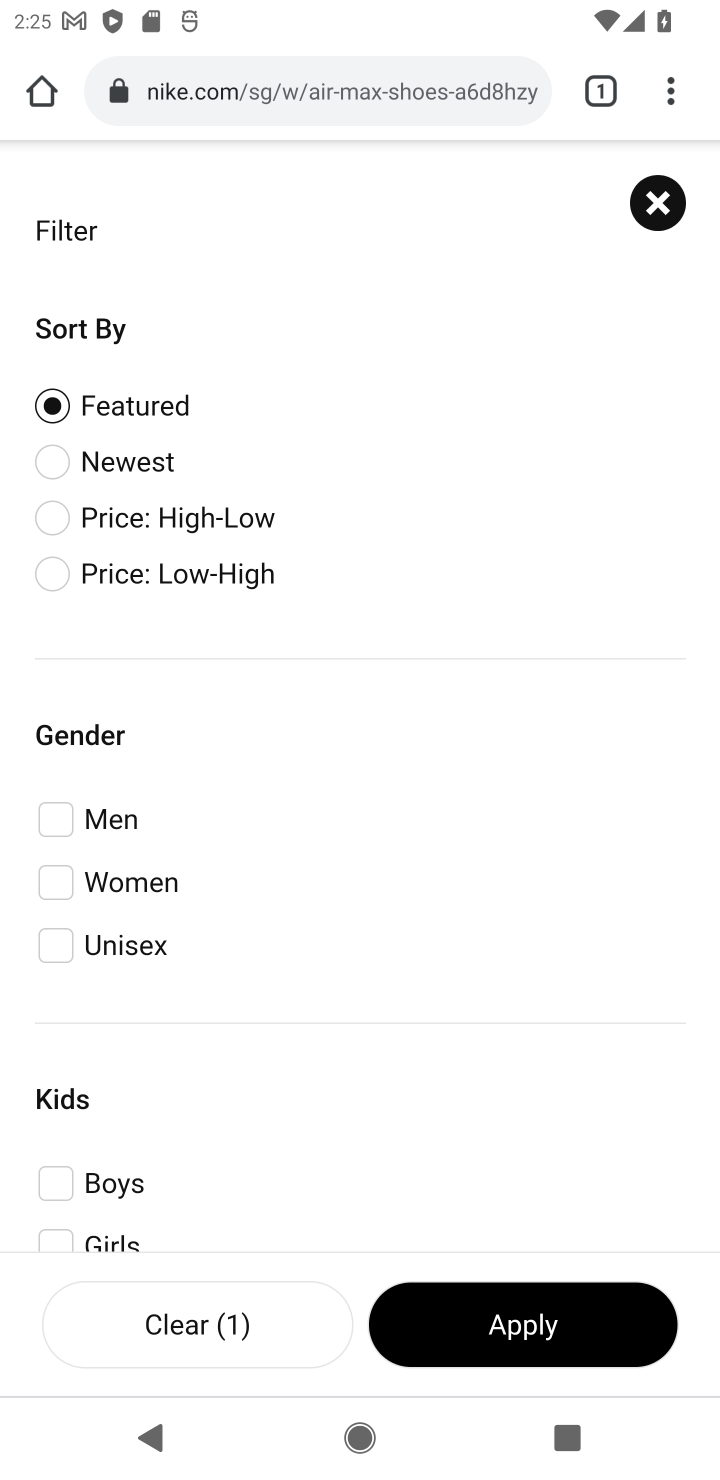
Step 29: drag from (285, 1024) to (393, 500)
Your task to perform on an android device: Nike Air Max 2020 shoes on Nike.com Image 30: 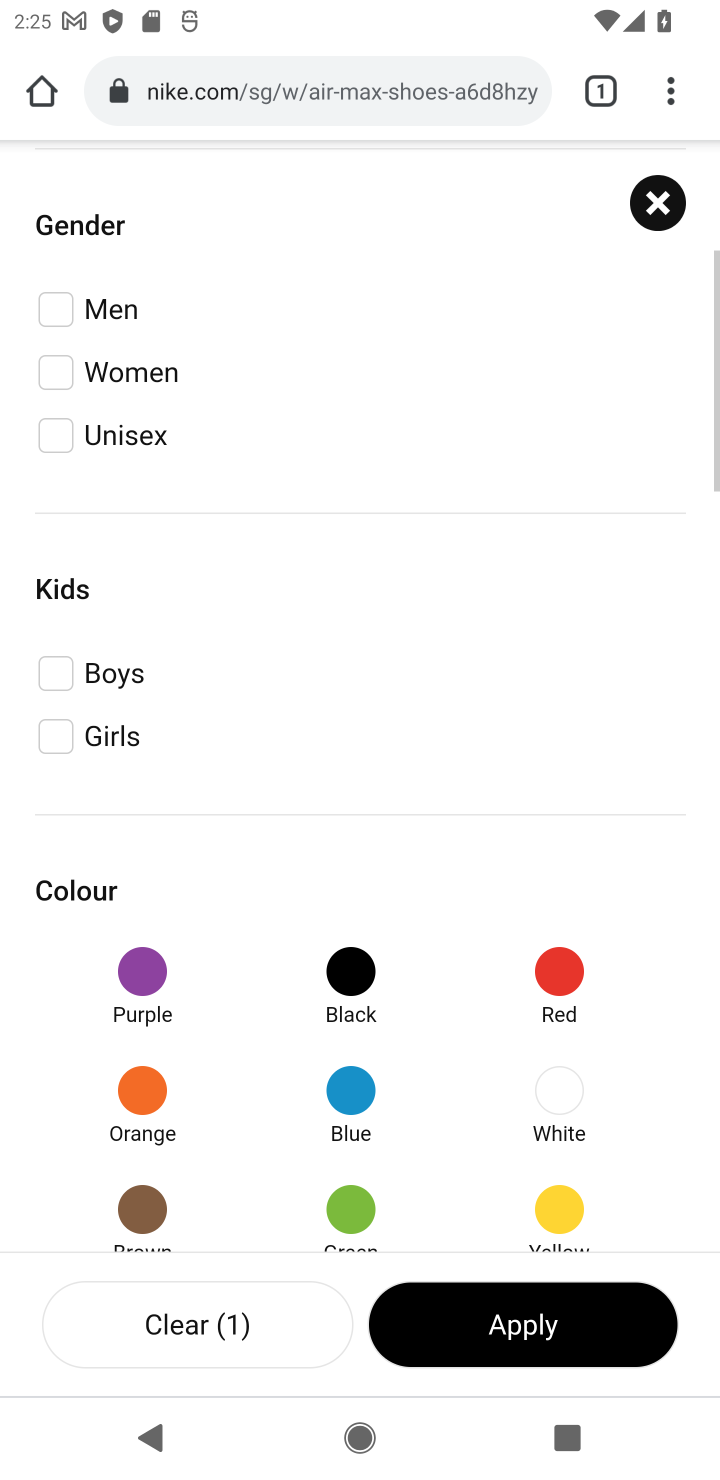
Step 30: drag from (270, 1077) to (380, 346)
Your task to perform on an android device: Nike Air Max 2020 shoes on Nike.com Image 31: 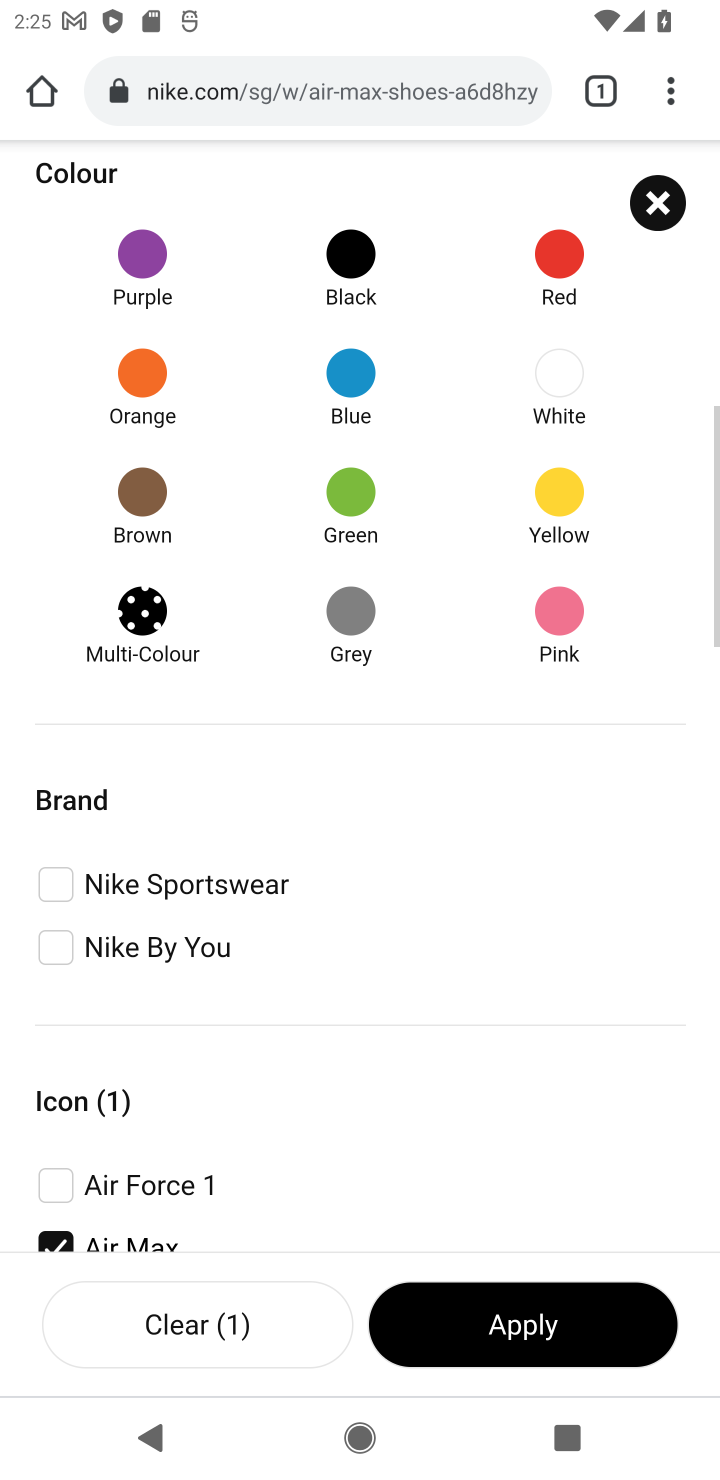
Step 31: drag from (273, 1001) to (361, 395)
Your task to perform on an android device: Nike Air Max 2020 shoes on Nike.com Image 32: 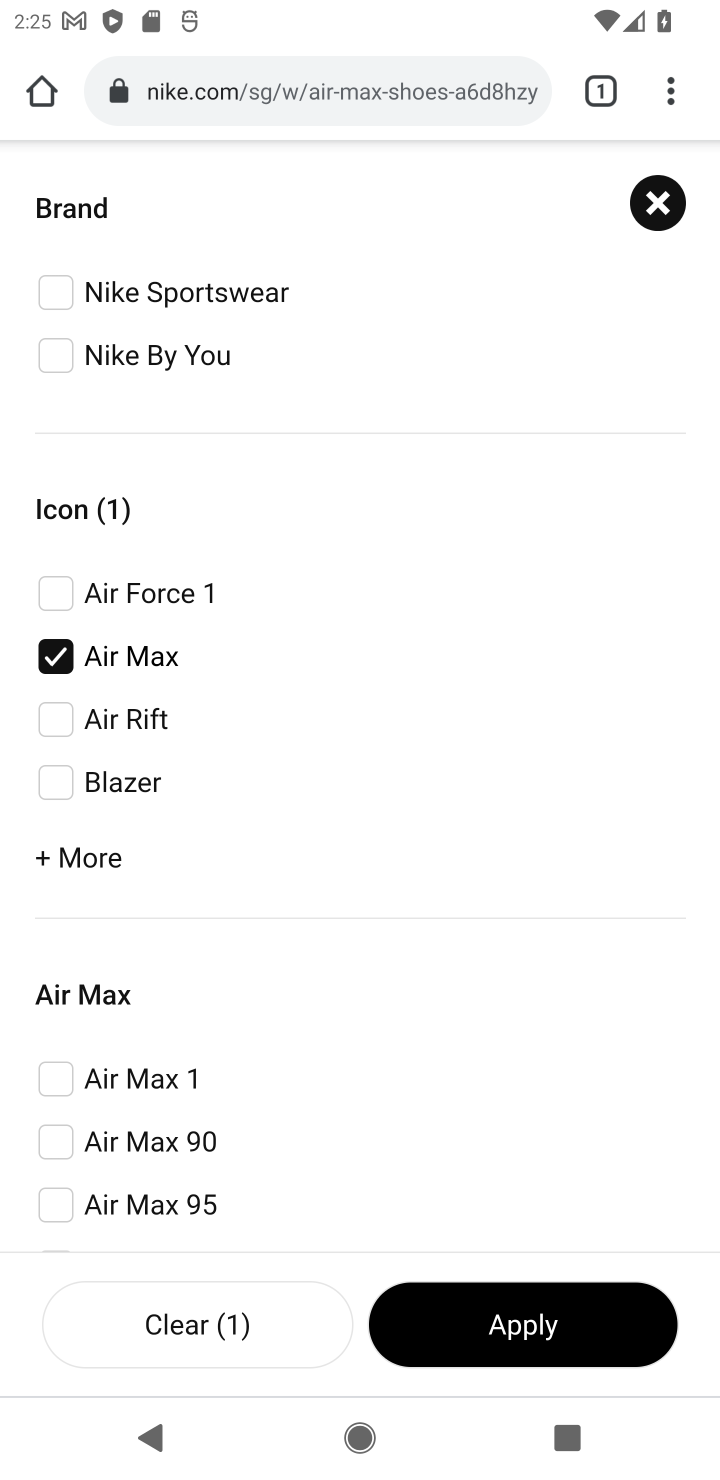
Step 32: drag from (310, 1140) to (387, 625)
Your task to perform on an android device: Nike Air Max 2020 shoes on Nike.com Image 33: 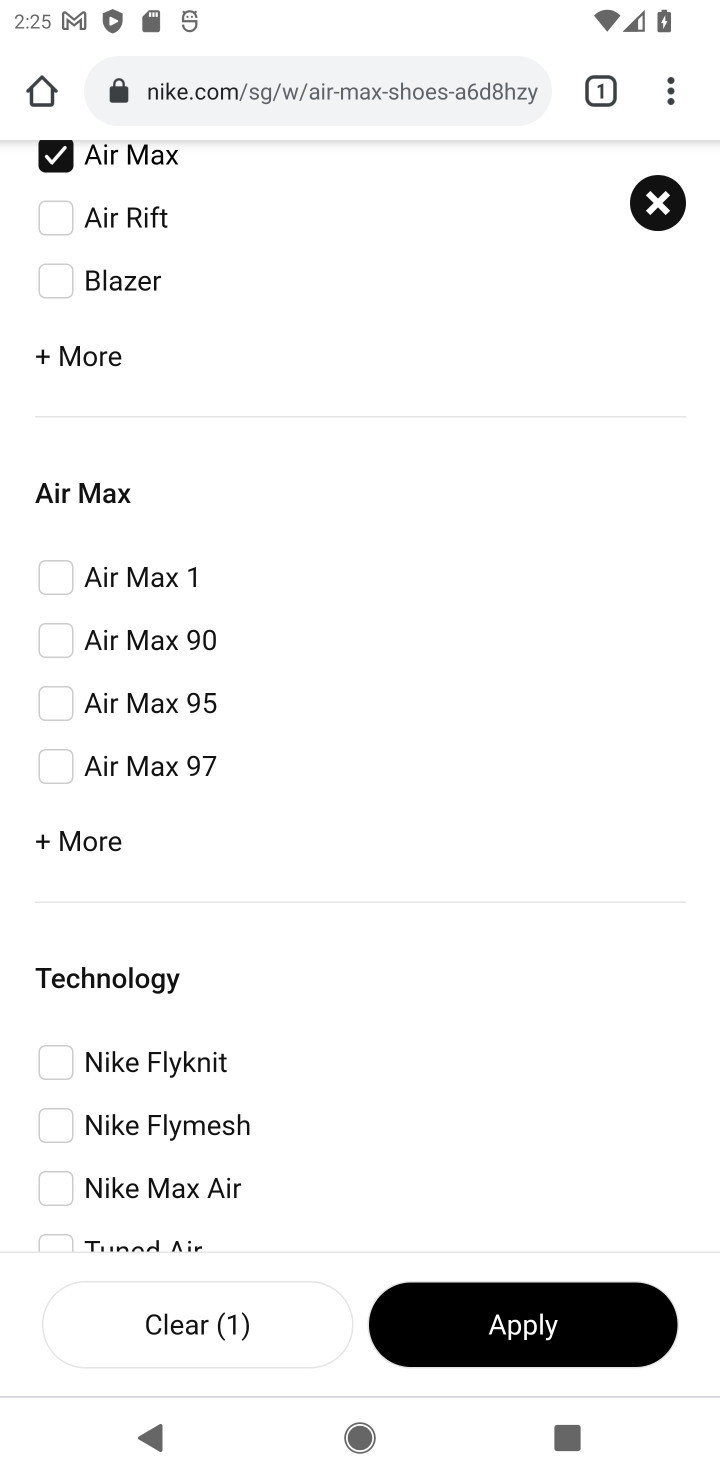
Step 33: drag from (334, 1027) to (373, 438)
Your task to perform on an android device: Nike Air Max 2020 shoes on Nike.com Image 34: 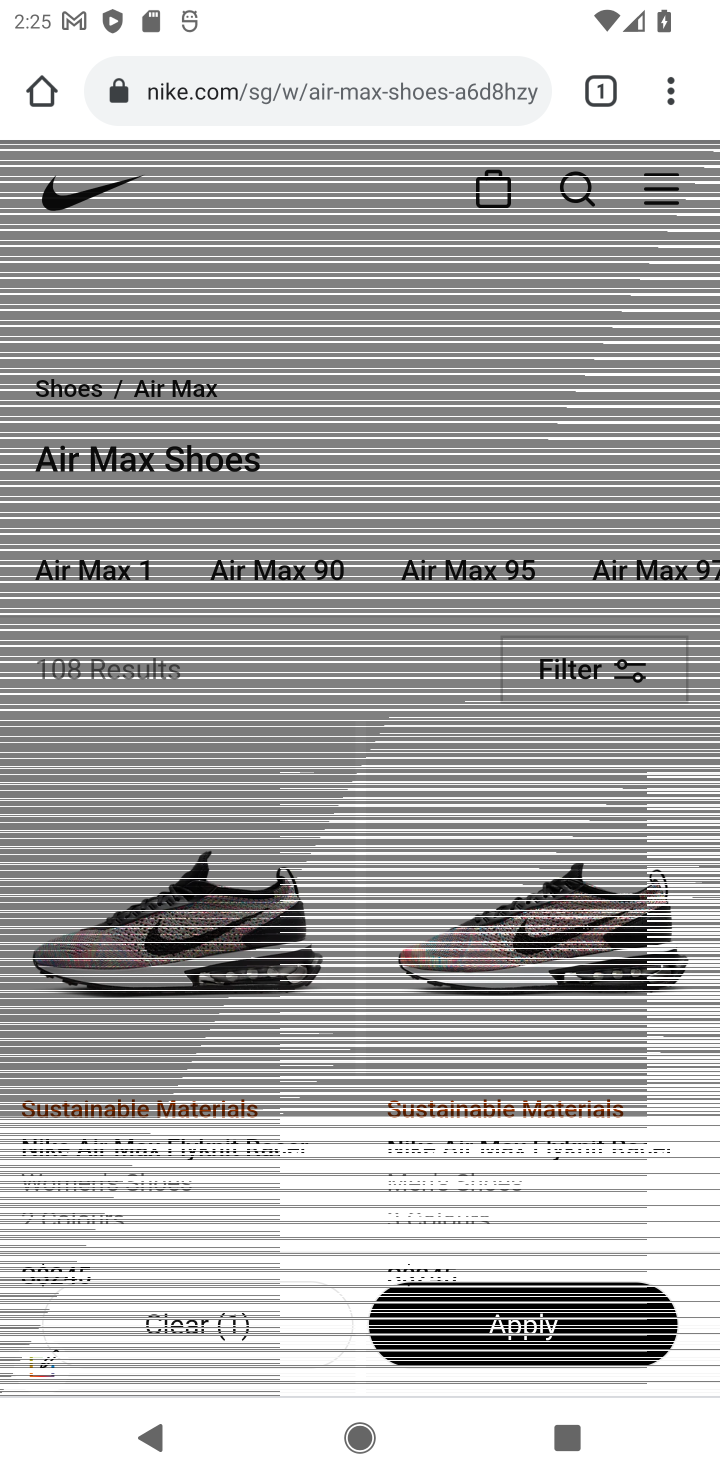
Step 34: click (403, 420)
Your task to perform on an android device: Nike Air Max 2020 shoes on Nike.com Image 35: 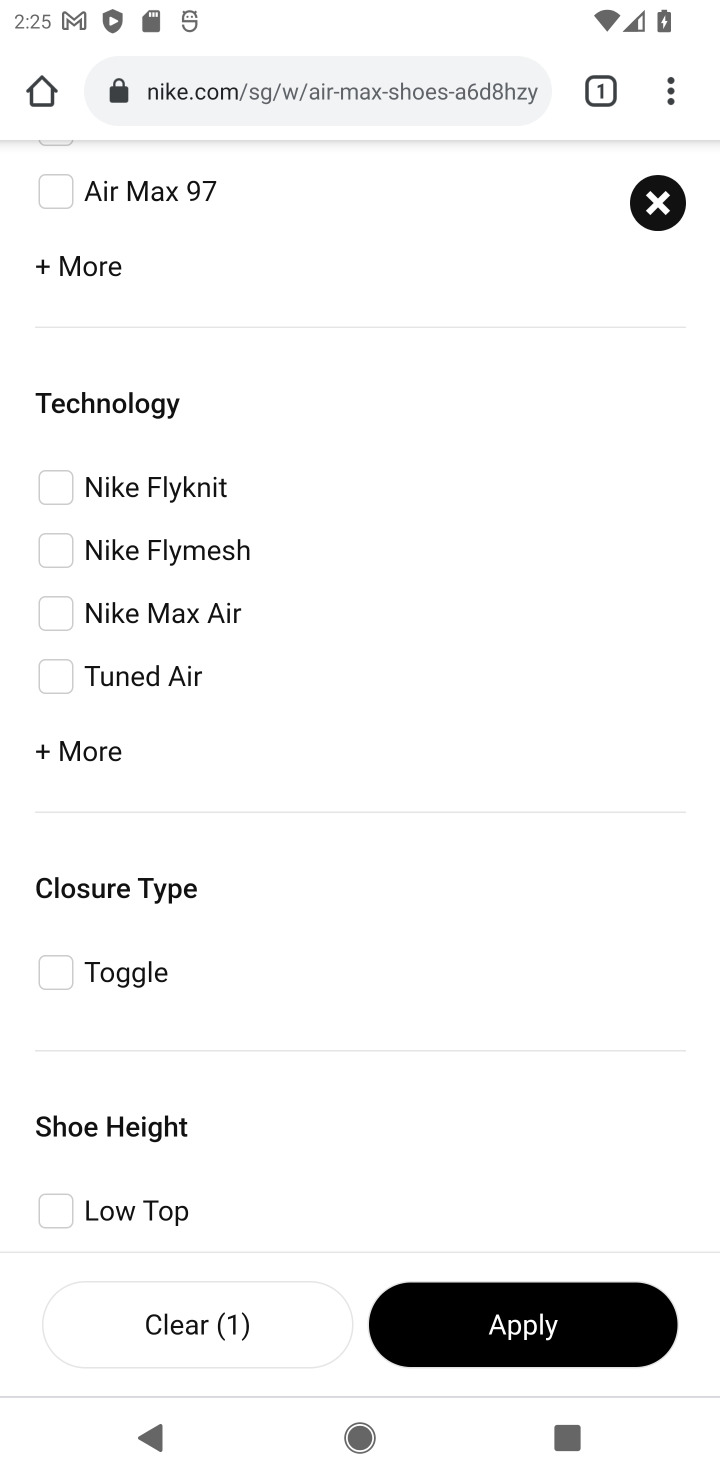
Step 35: drag from (327, 505) to (473, 1105)
Your task to perform on an android device: Nike Air Max 2020 shoes on Nike.com Image 36: 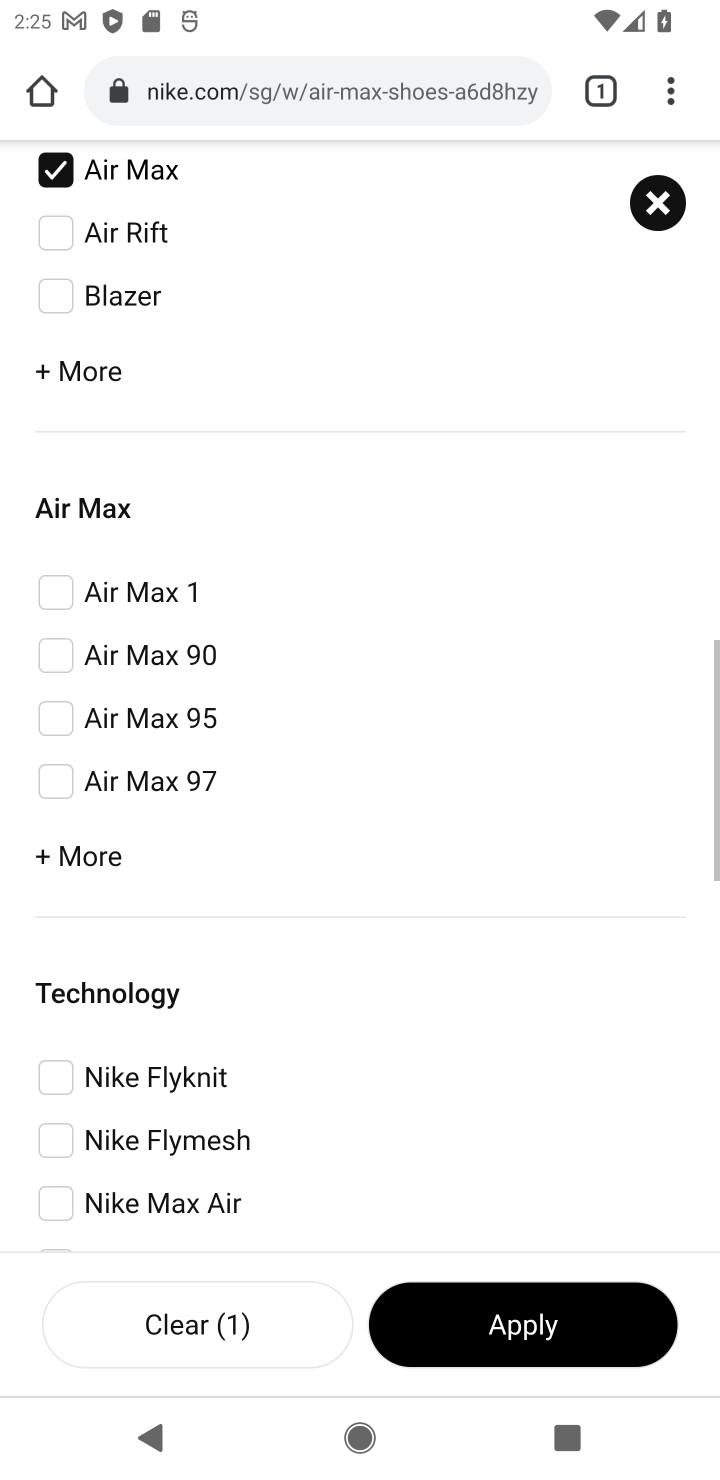
Step 36: drag from (480, 665) to (622, 1310)
Your task to perform on an android device: Nike Air Max 2020 shoes on Nike.com Image 37: 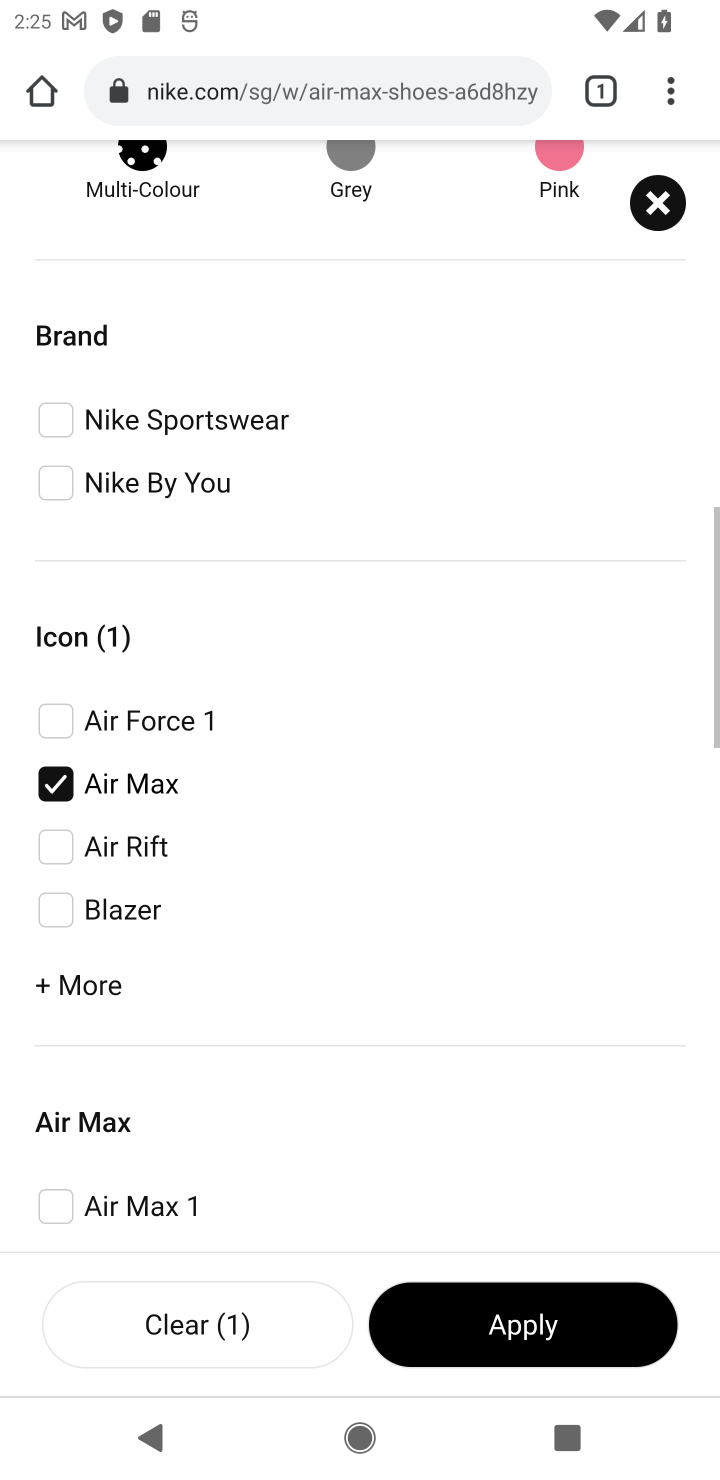
Step 37: drag from (436, 1128) to (454, 1341)
Your task to perform on an android device: Nike Air Max 2020 shoes on Nike.com Image 38: 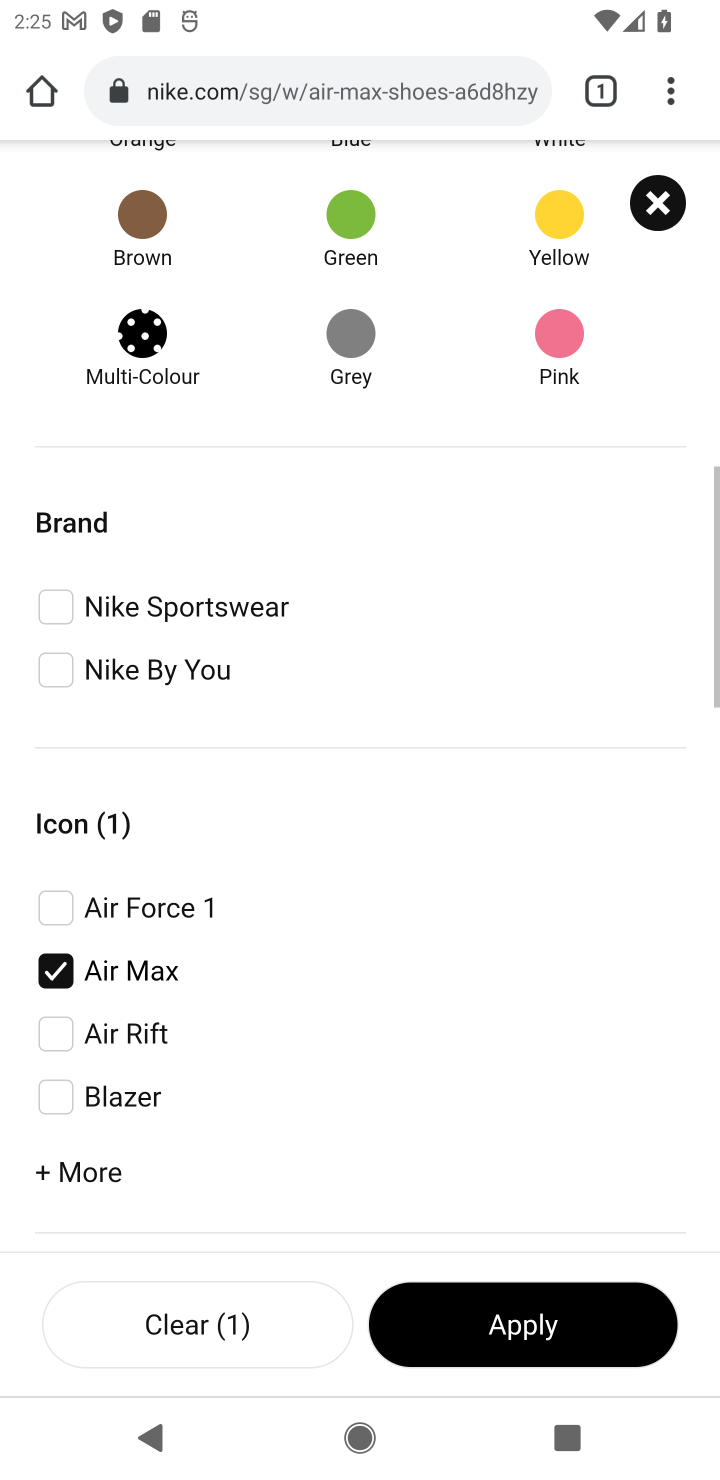
Step 38: click (487, 1339)
Your task to perform on an android device: Nike Air Max 2020 shoes on Nike.com Image 39: 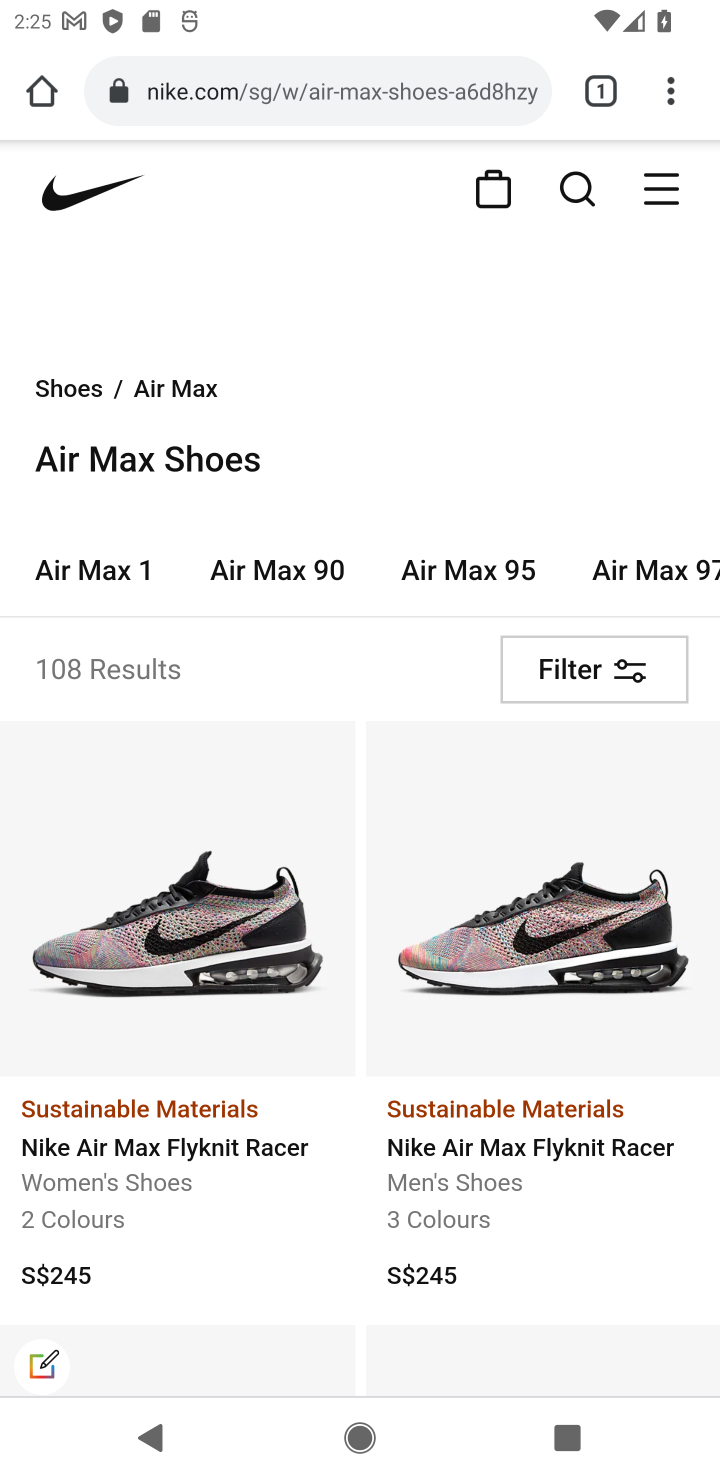
Step 39: drag from (641, 558) to (8, 598)
Your task to perform on an android device: Nike Air Max 2020 shoes on Nike.com Image 40: 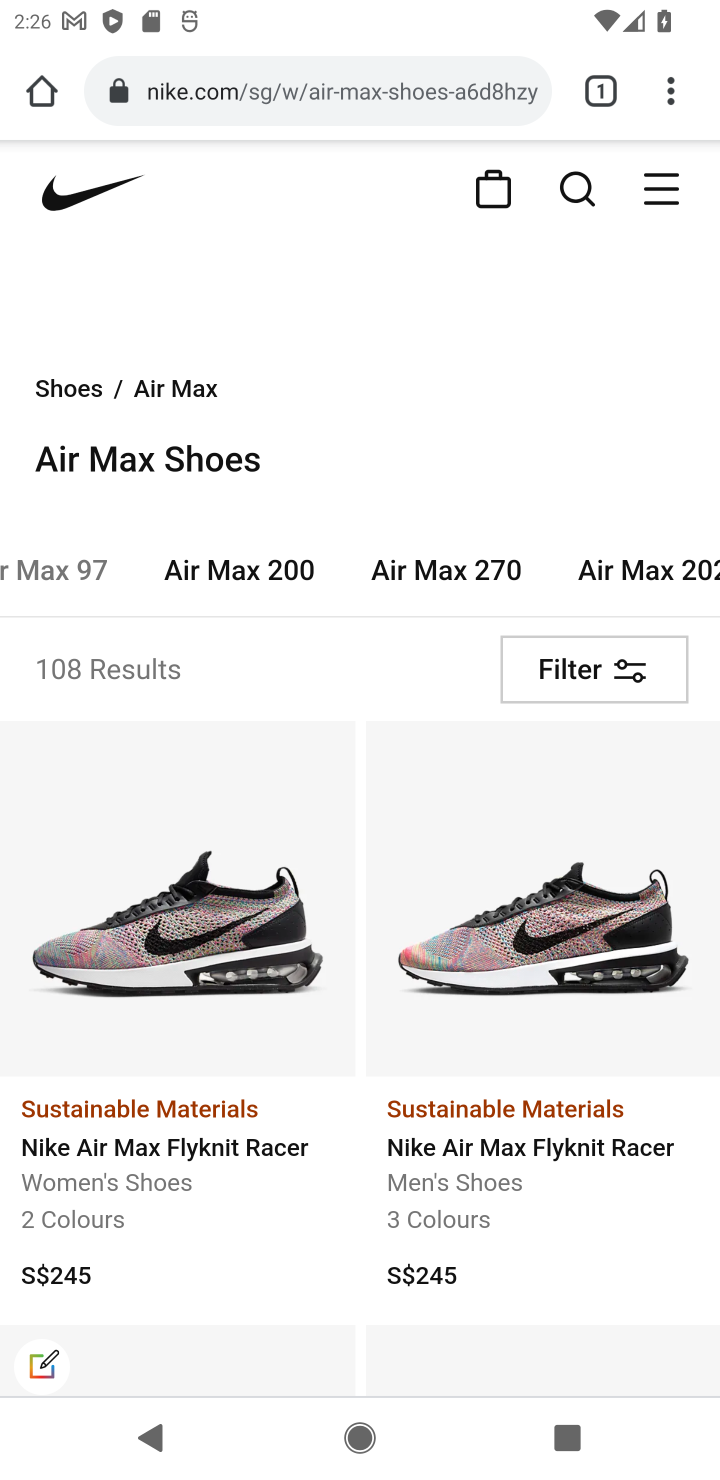
Step 40: click (679, 568)
Your task to perform on an android device: Nike Air Max 2020 shoes on Nike.com Image 41: 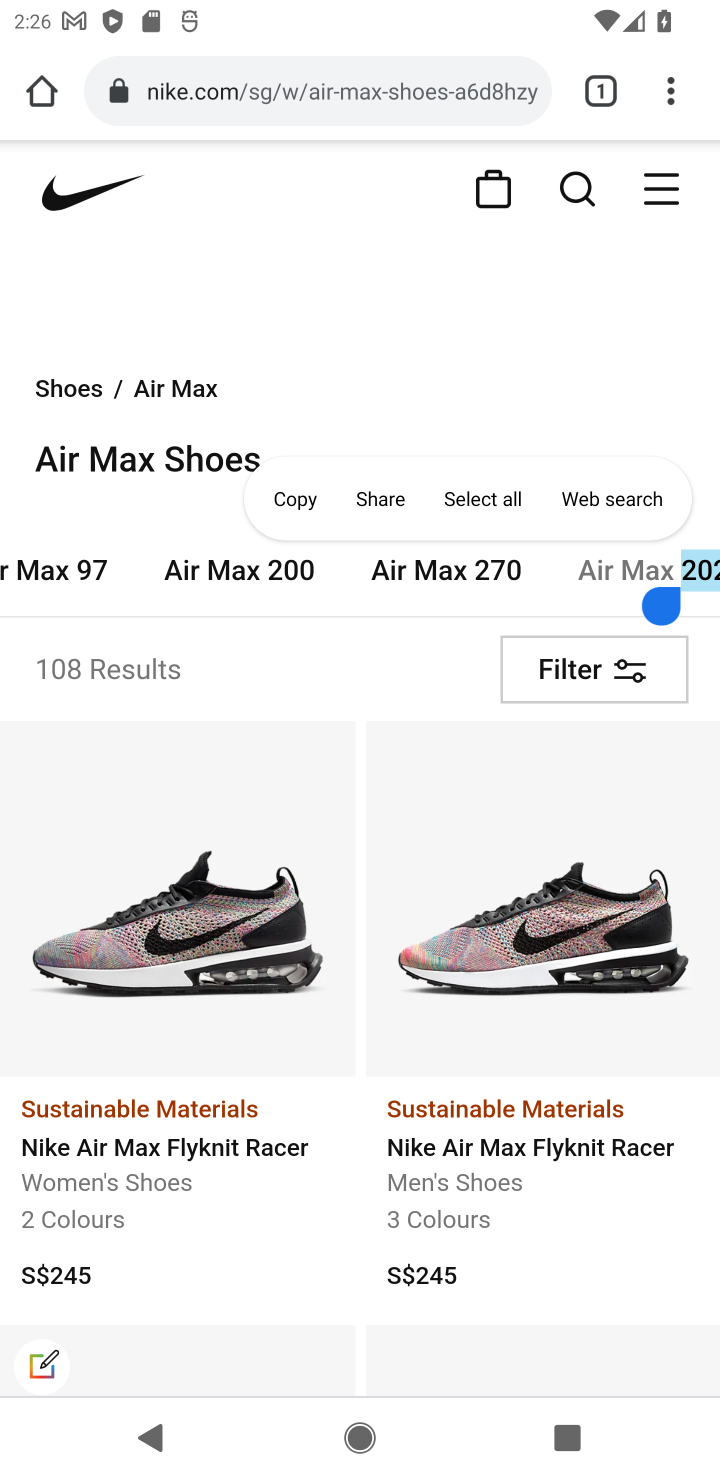
Step 41: click (602, 560)
Your task to perform on an android device: Nike Air Max 2020 shoes on Nike.com Image 42: 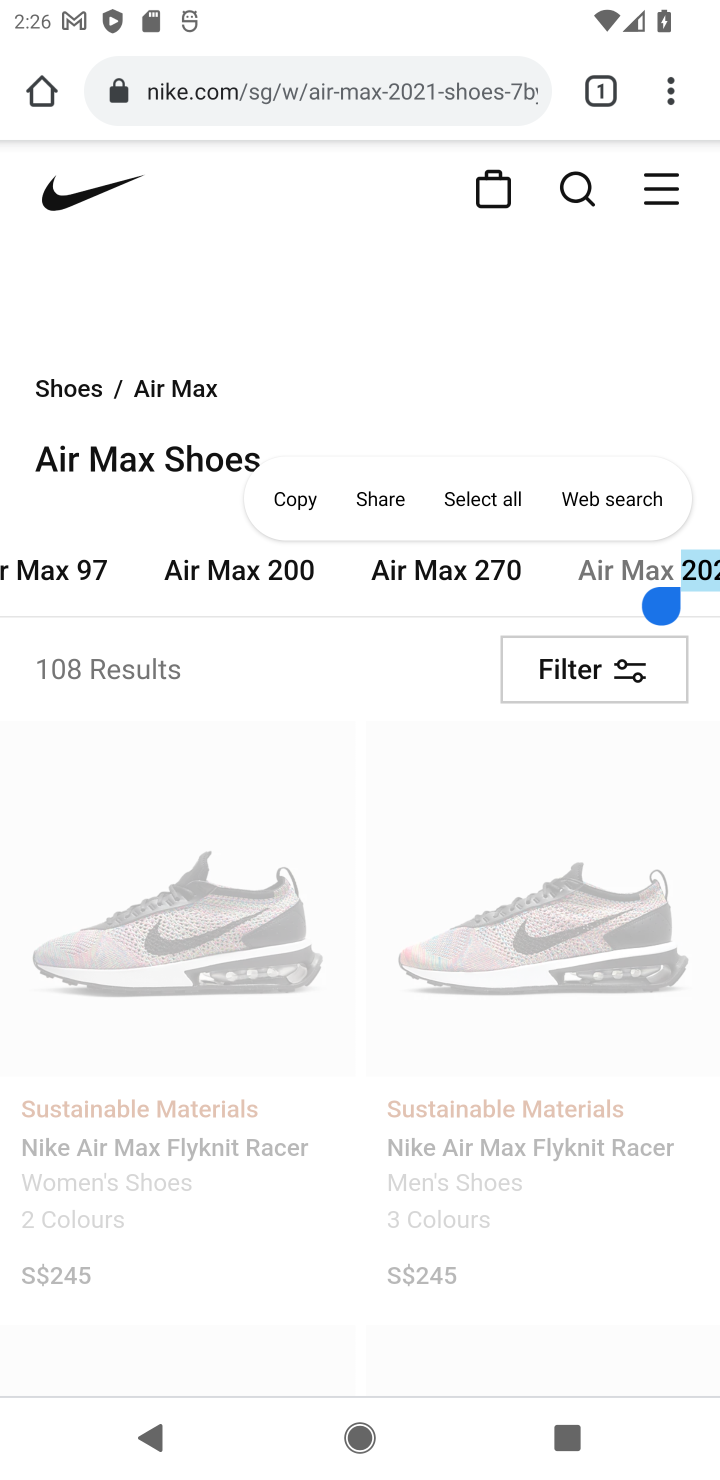
Step 42: click (582, 568)
Your task to perform on an android device: Nike Air Max 2020 shoes on Nike.com Image 43: 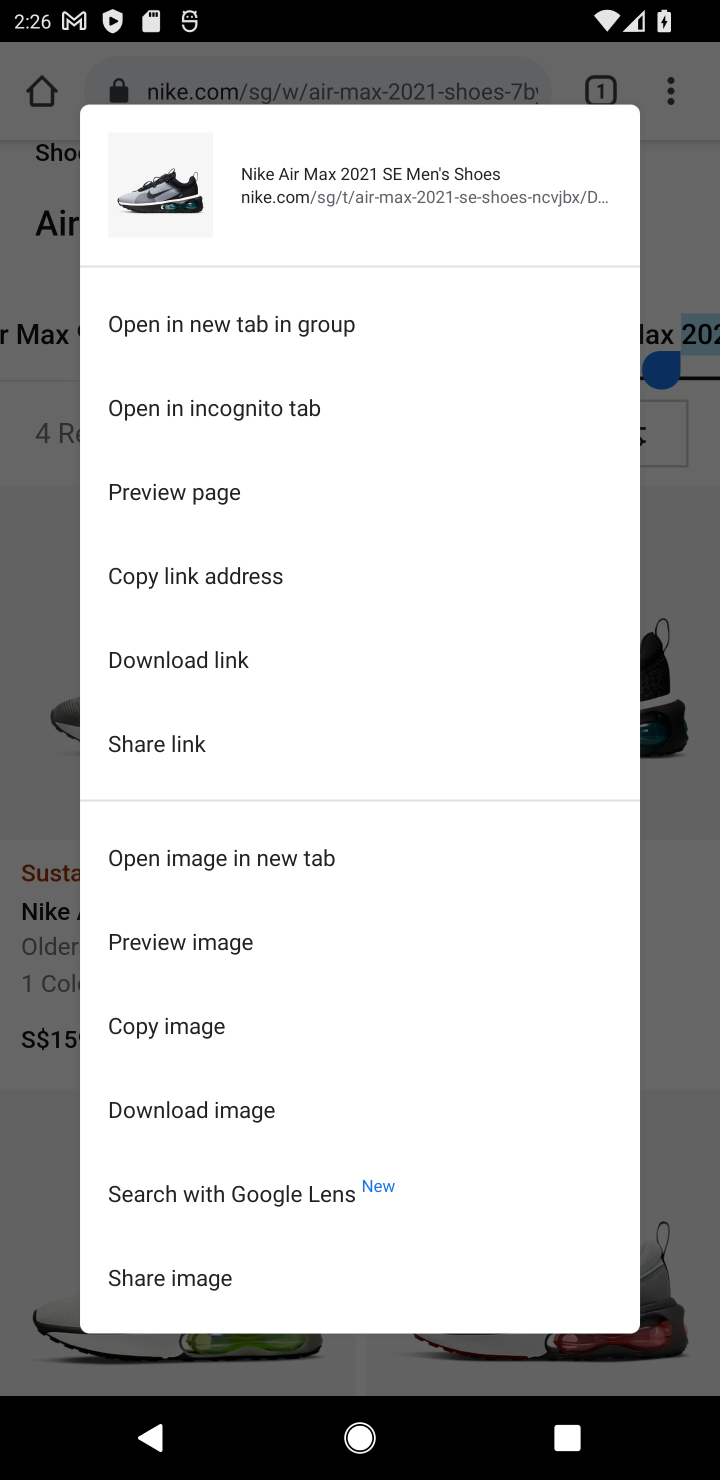
Step 43: task complete